Your task to perform on an android device: Add "asus zenbook" to the cart on newegg, then select checkout. Image 0: 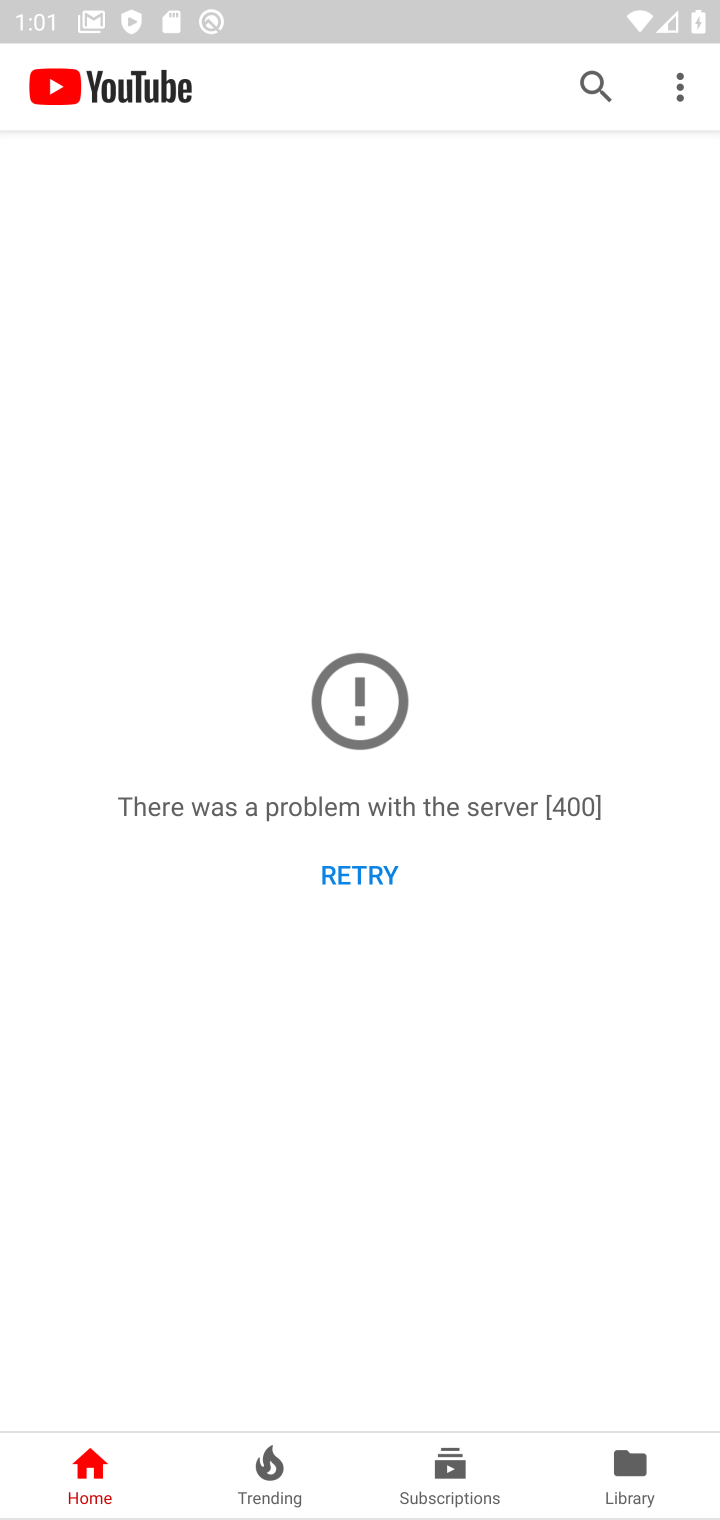
Step 0: press home button
Your task to perform on an android device: Add "asus zenbook" to the cart on newegg, then select checkout. Image 1: 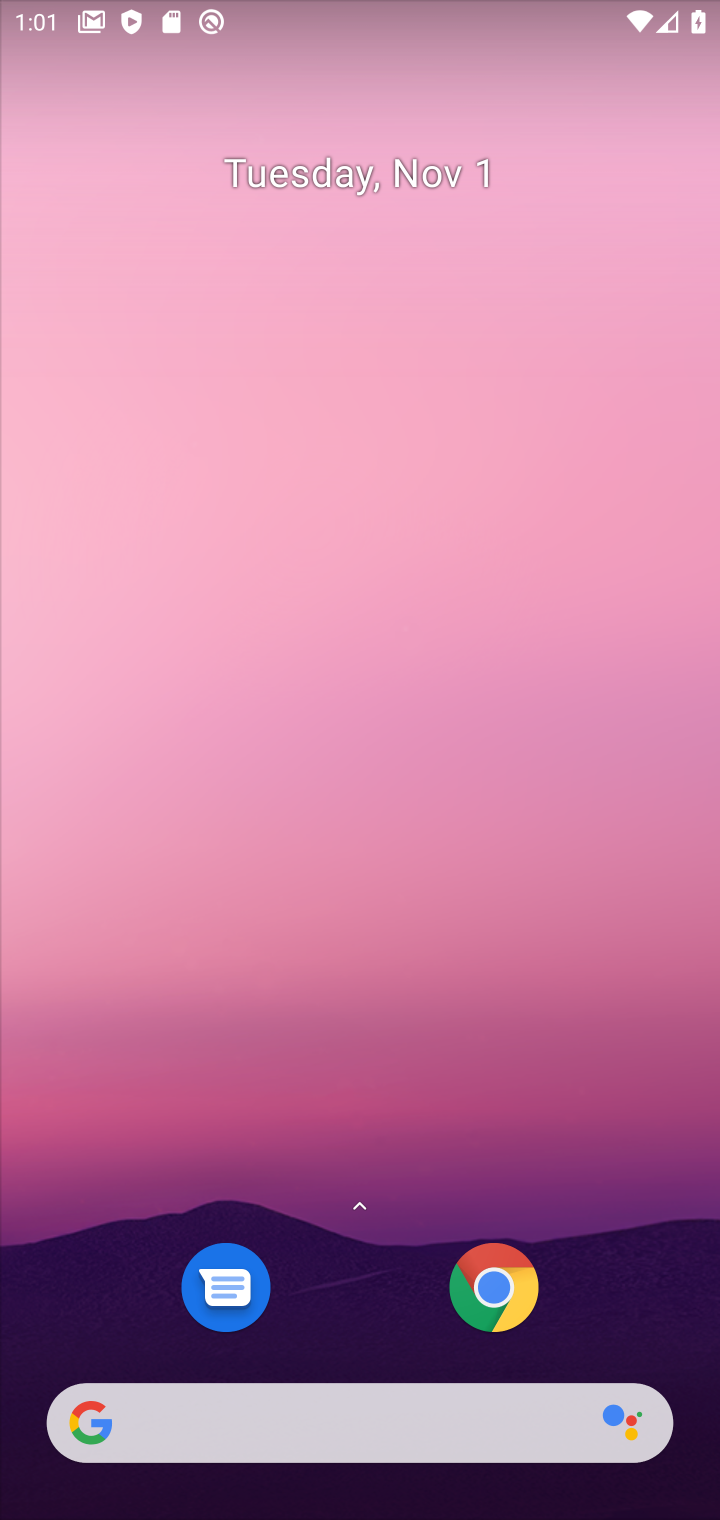
Step 1: drag from (335, 1285) to (311, 248)
Your task to perform on an android device: Add "asus zenbook" to the cart on newegg, then select checkout. Image 2: 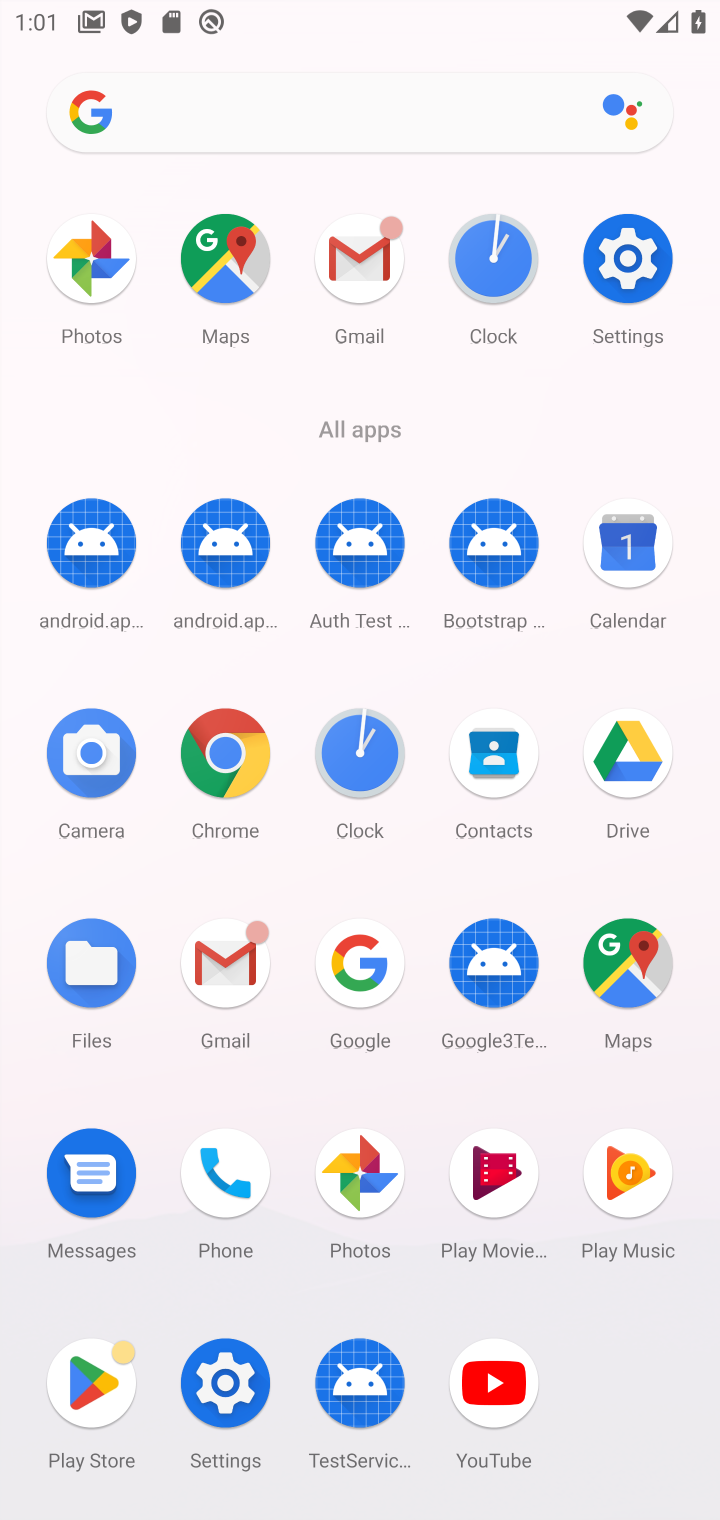
Step 2: click (238, 756)
Your task to perform on an android device: Add "asus zenbook" to the cart on newegg, then select checkout. Image 3: 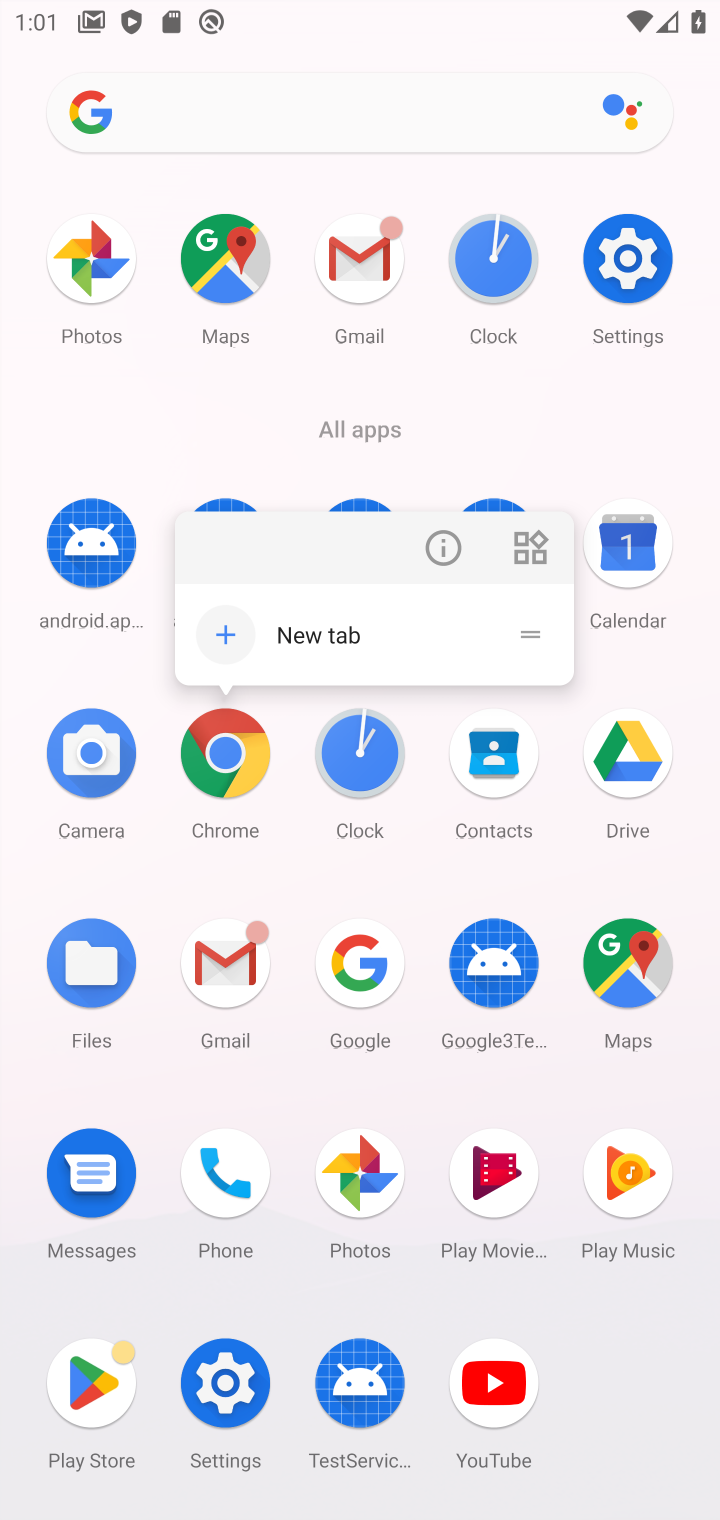
Step 3: click (238, 756)
Your task to perform on an android device: Add "asus zenbook" to the cart on newegg, then select checkout. Image 4: 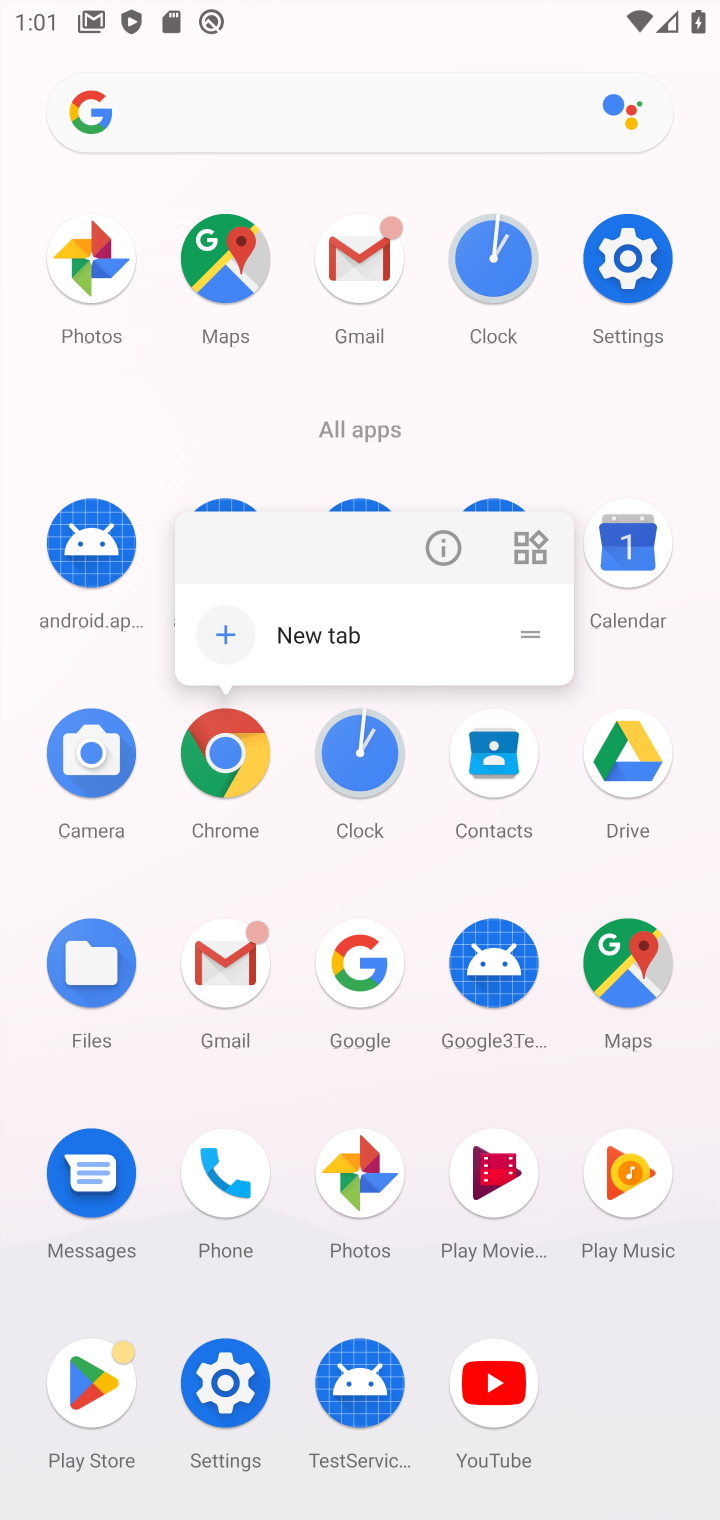
Step 4: click (237, 756)
Your task to perform on an android device: Add "asus zenbook" to the cart on newegg, then select checkout. Image 5: 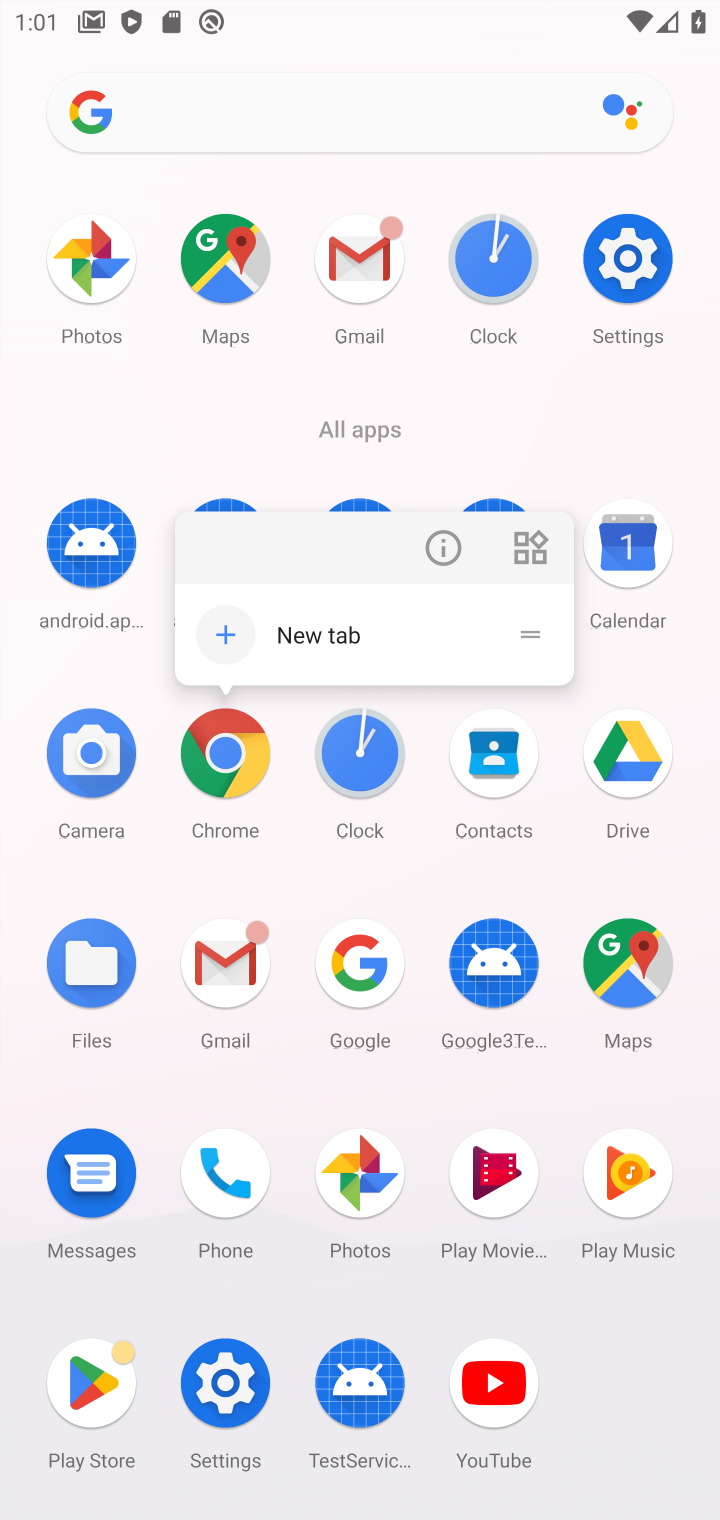
Step 5: click (229, 756)
Your task to perform on an android device: Add "asus zenbook" to the cart on newegg, then select checkout. Image 6: 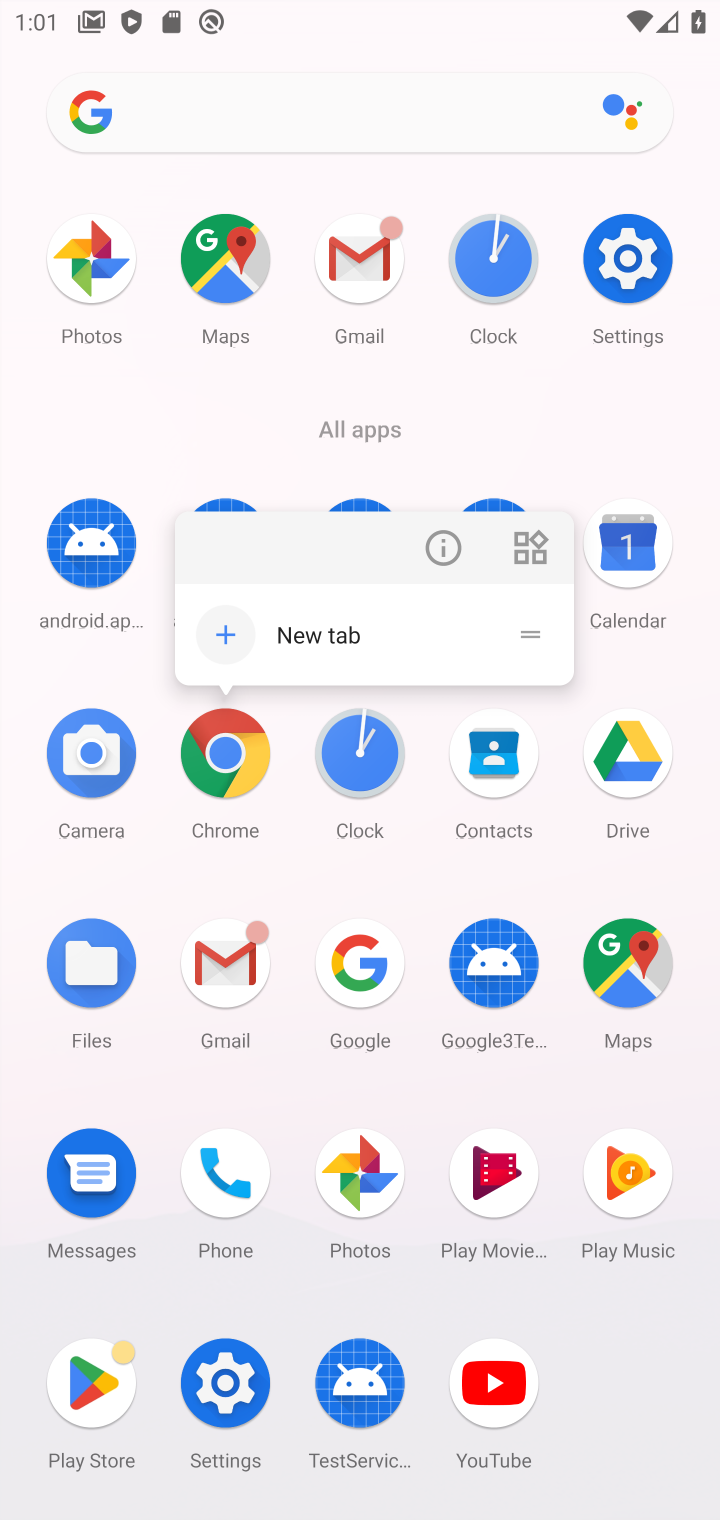
Step 6: click (223, 761)
Your task to perform on an android device: Add "asus zenbook" to the cart on newegg, then select checkout. Image 7: 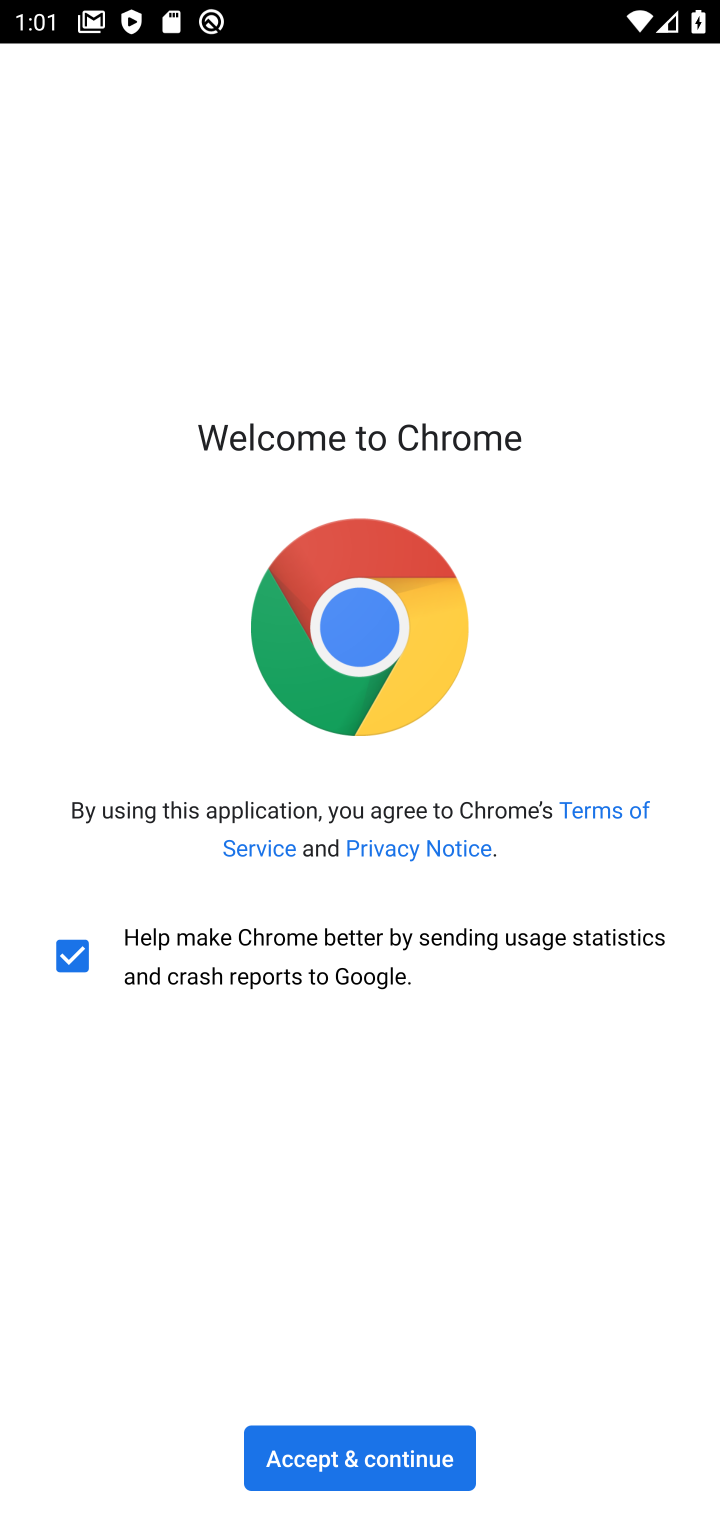
Step 7: click (391, 1461)
Your task to perform on an android device: Add "asus zenbook" to the cart on newegg, then select checkout. Image 8: 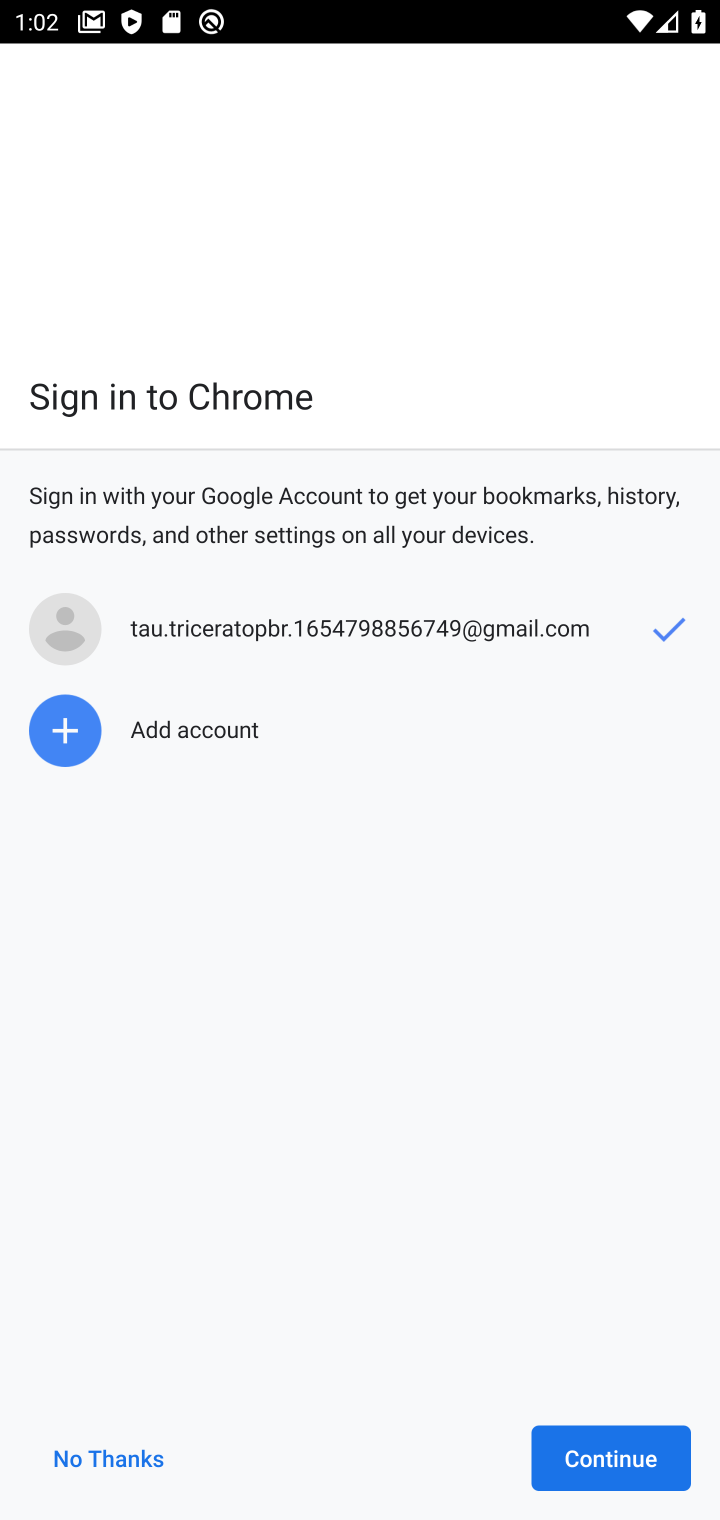
Step 8: click (640, 1465)
Your task to perform on an android device: Add "asus zenbook" to the cart on newegg, then select checkout. Image 9: 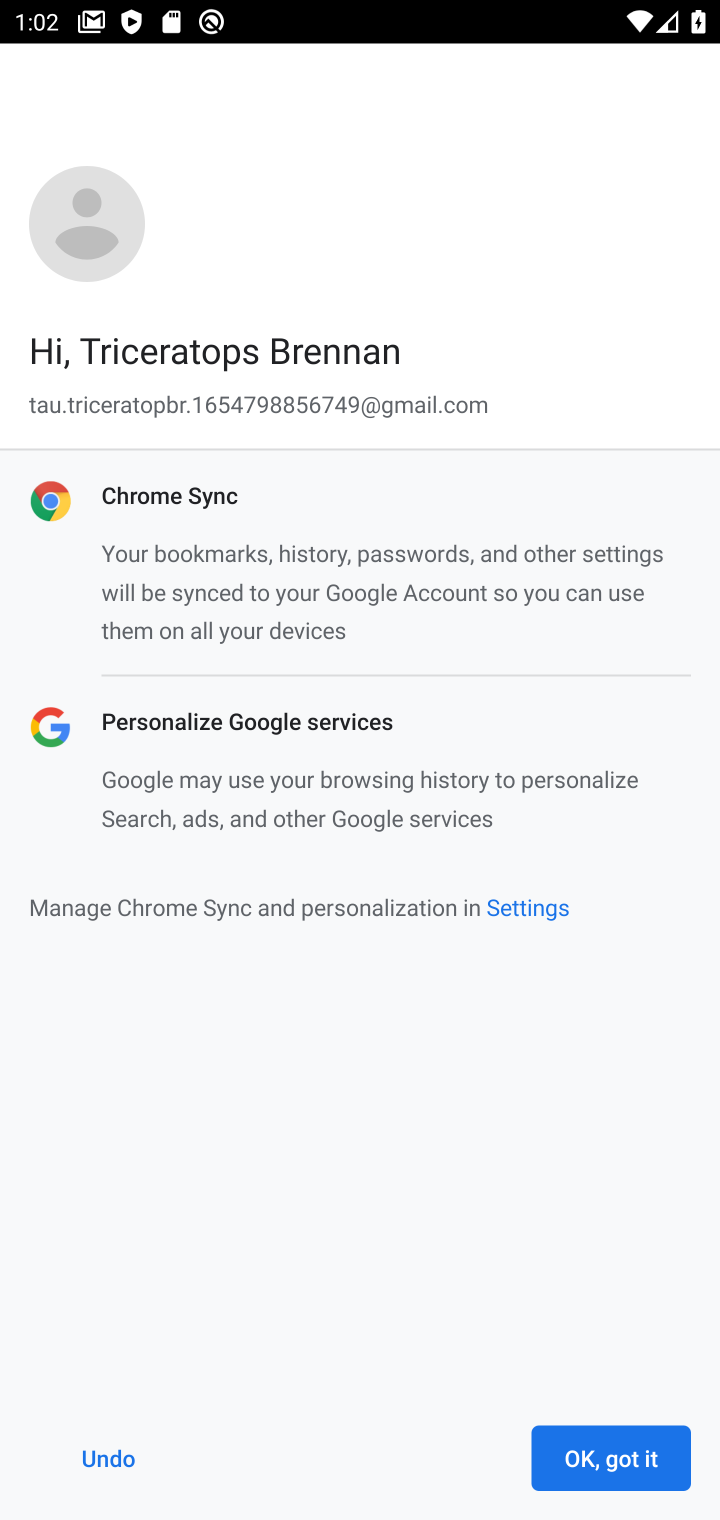
Step 9: click (635, 1459)
Your task to perform on an android device: Add "asus zenbook" to the cart on newegg, then select checkout. Image 10: 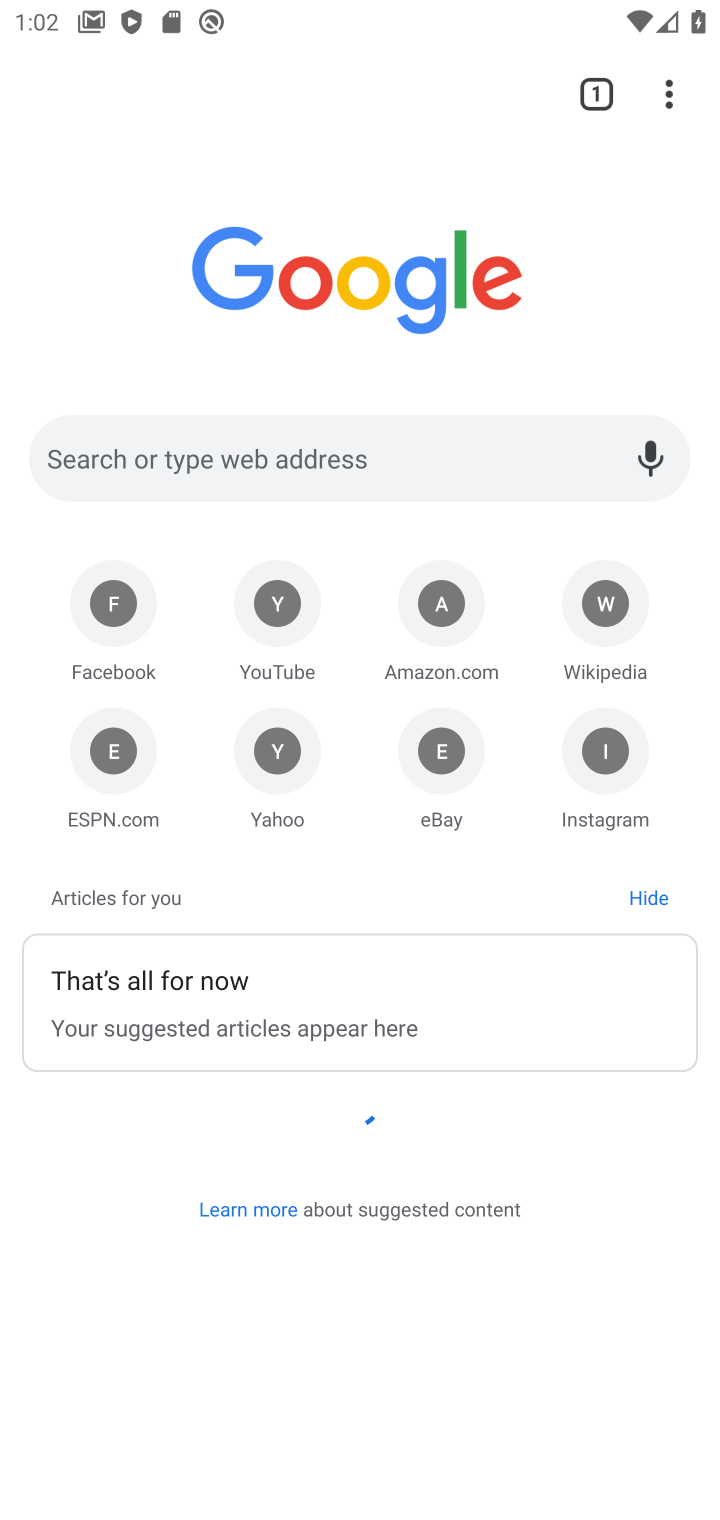
Step 10: click (327, 447)
Your task to perform on an android device: Add "asus zenbook" to the cart on newegg, then select checkout. Image 11: 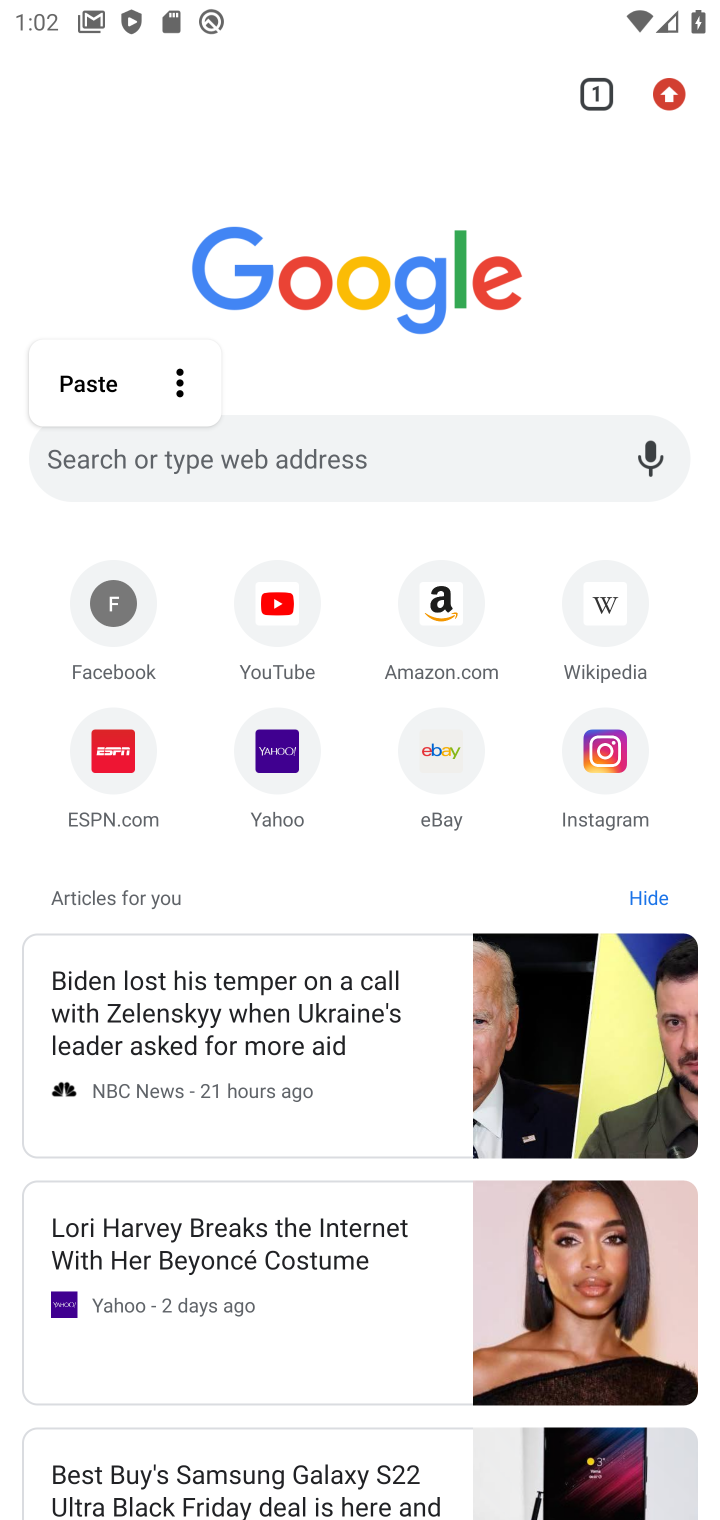
Step 11: click (192, 471)
Your task to perform on an android device: Add "asus zenbook" to the cart on newegg, then select checkout. Image 12: 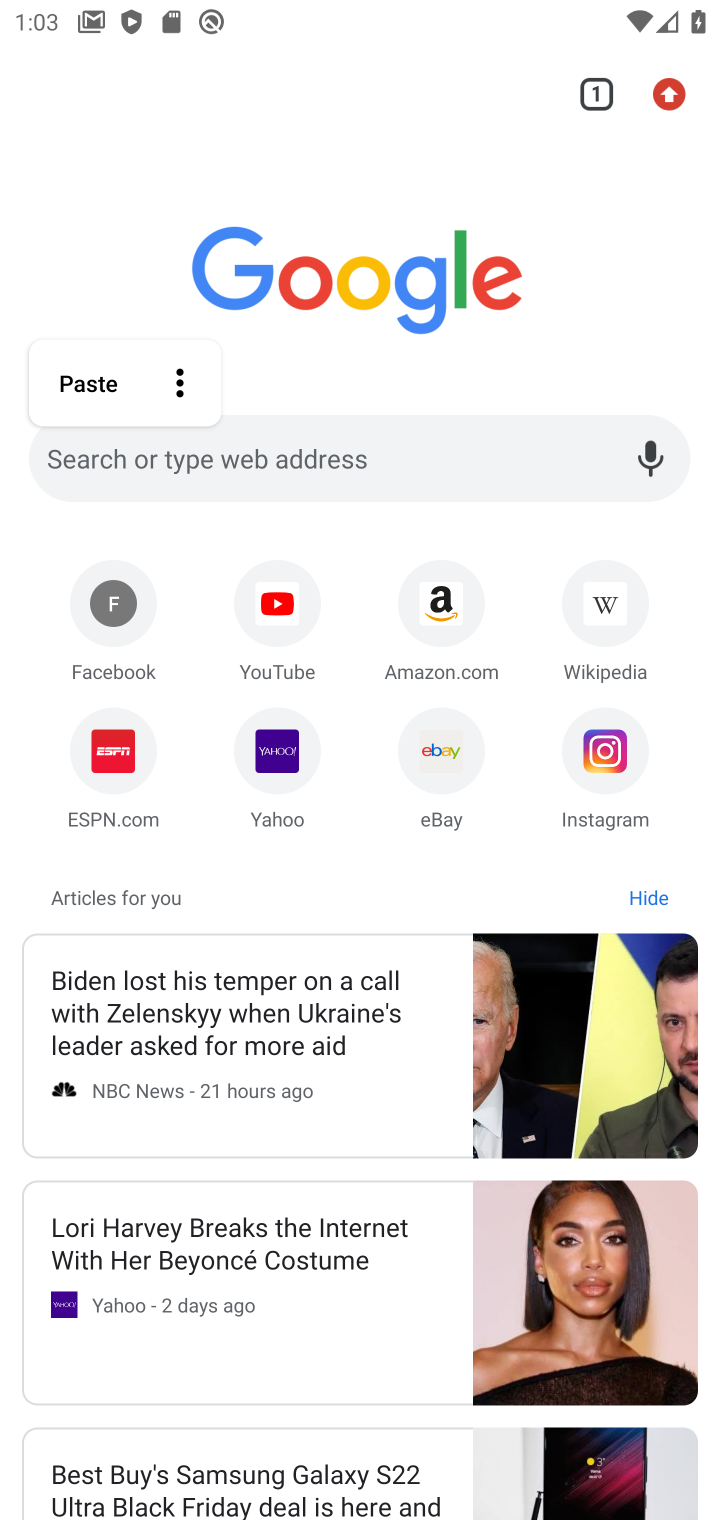
Step 12: click (228, 454)
Your task to perform on an android device: Add "asus zenbook" to the cart on newegg, then select checkout. Image 13: 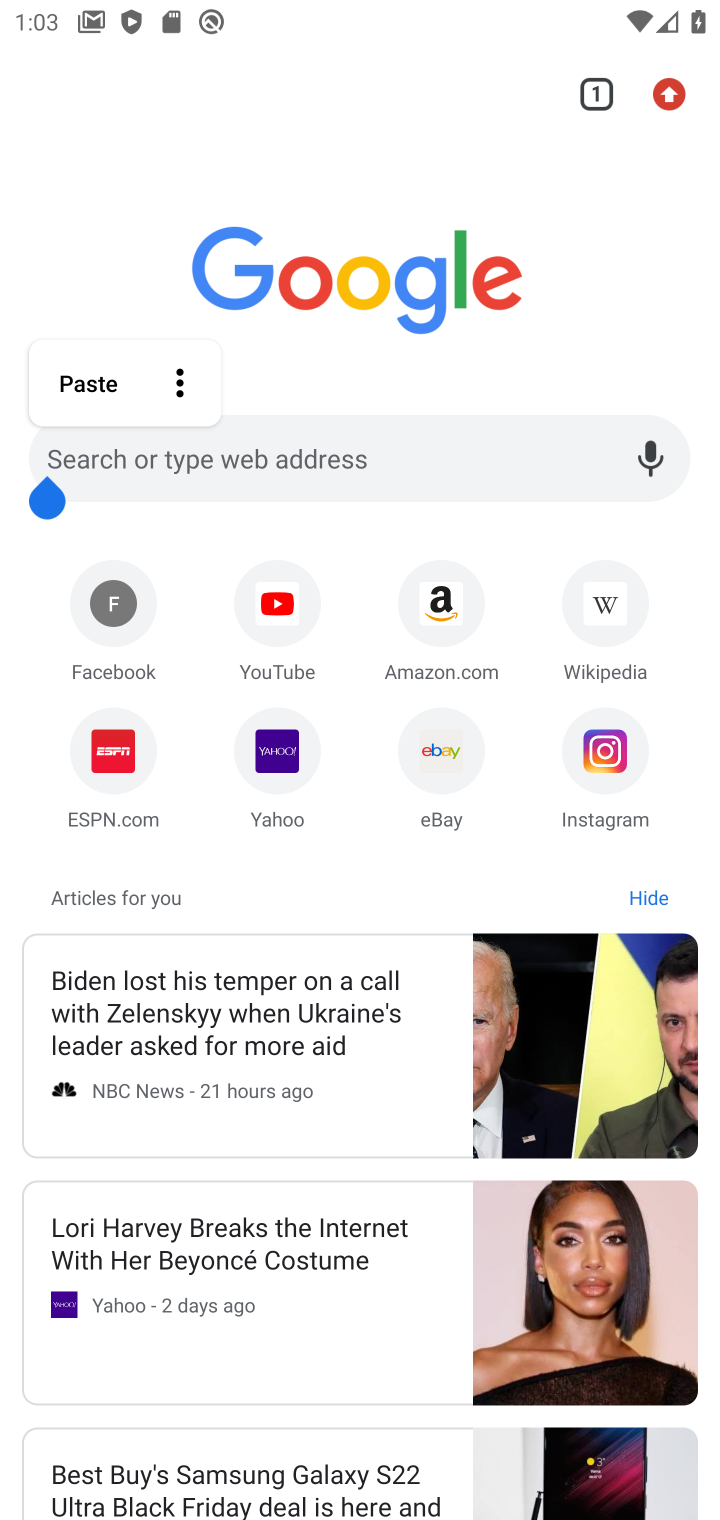
Step 13: click (480, 469)
Your task to perform on an android device: Add "asus zenbook" to the cart on newegg, then select checkout. Image 14: 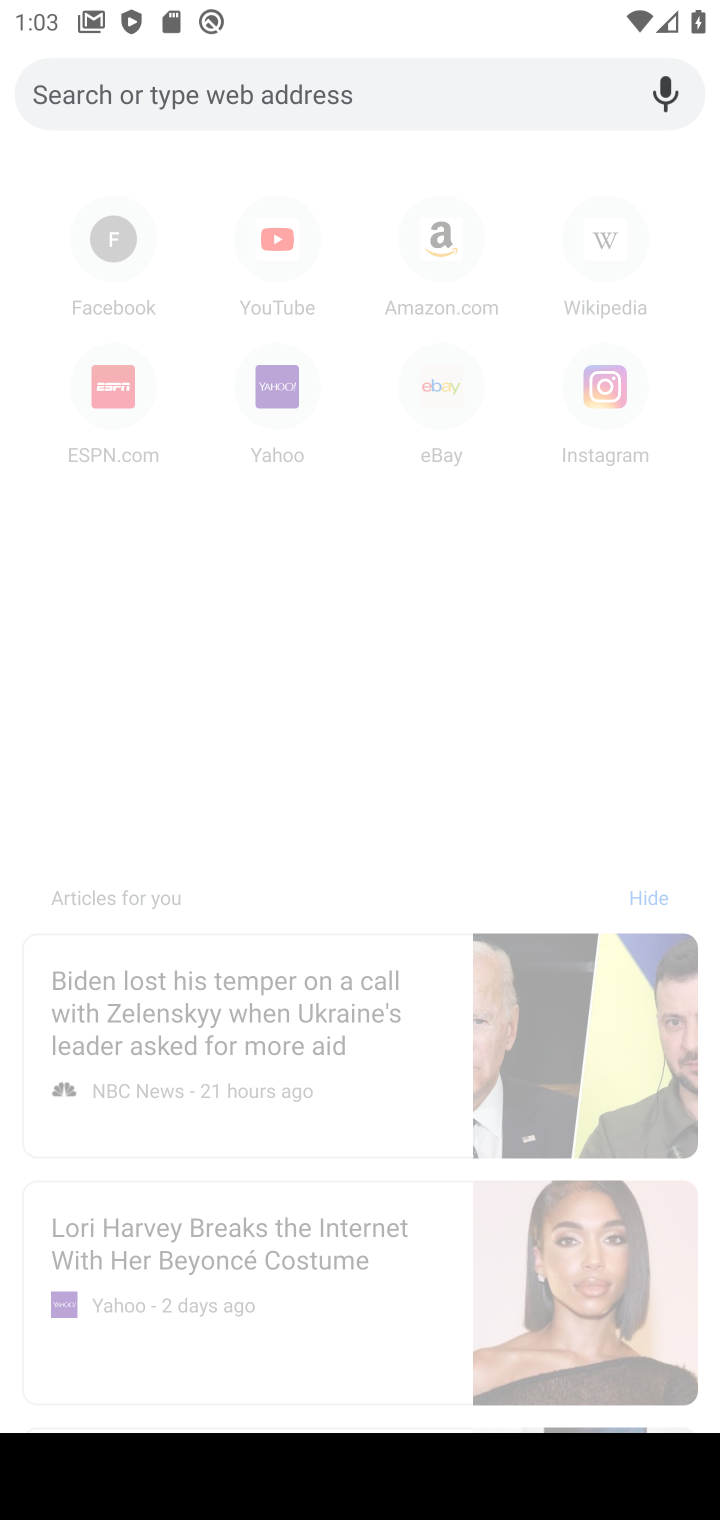
Step 14: type "newegg.com"
Your task to perform on an android device: Add "asus zenbook" to the cart on newegg, then select checkout. Image 15: 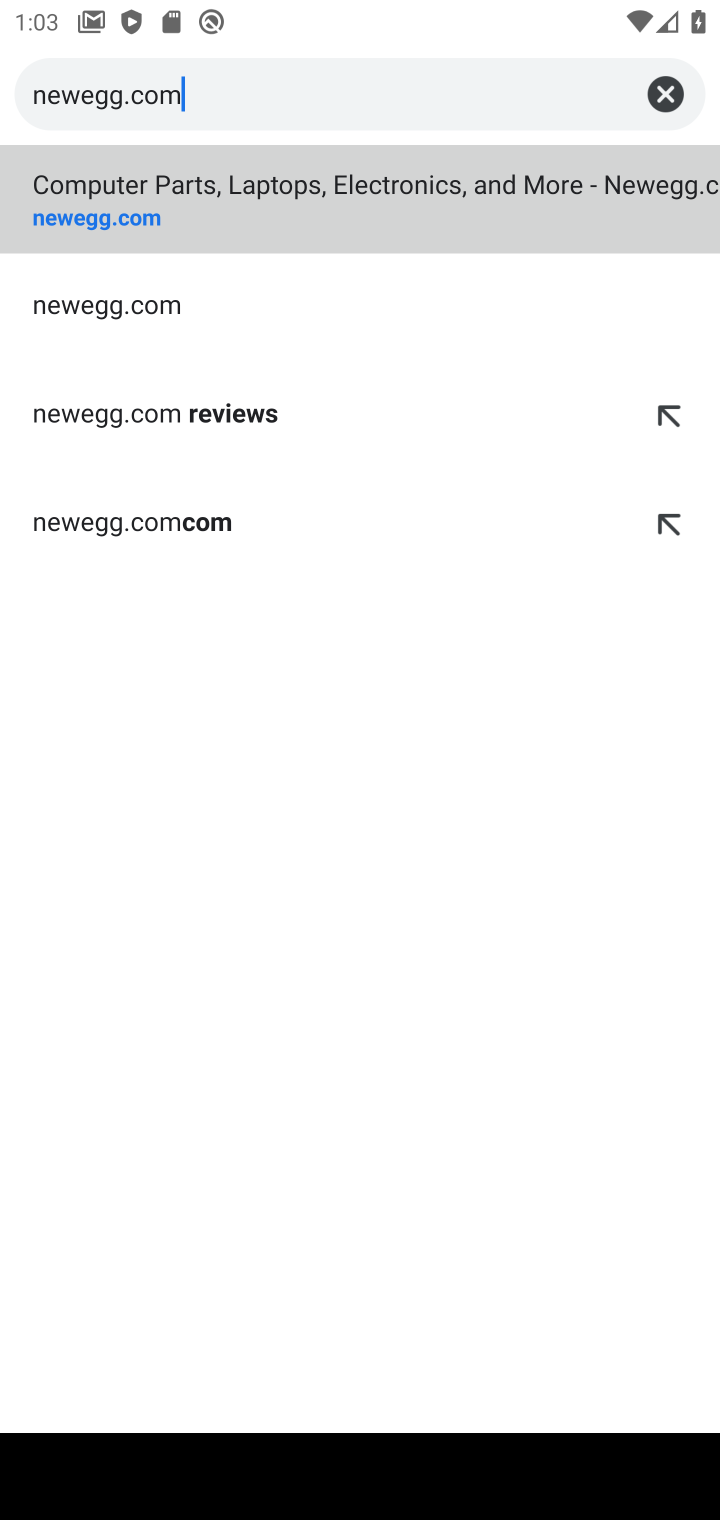
Step 15: press enter
Your task to perform on an android device: Add "asus zenbook" to the cart on newegg, then select checkout. Image 16: 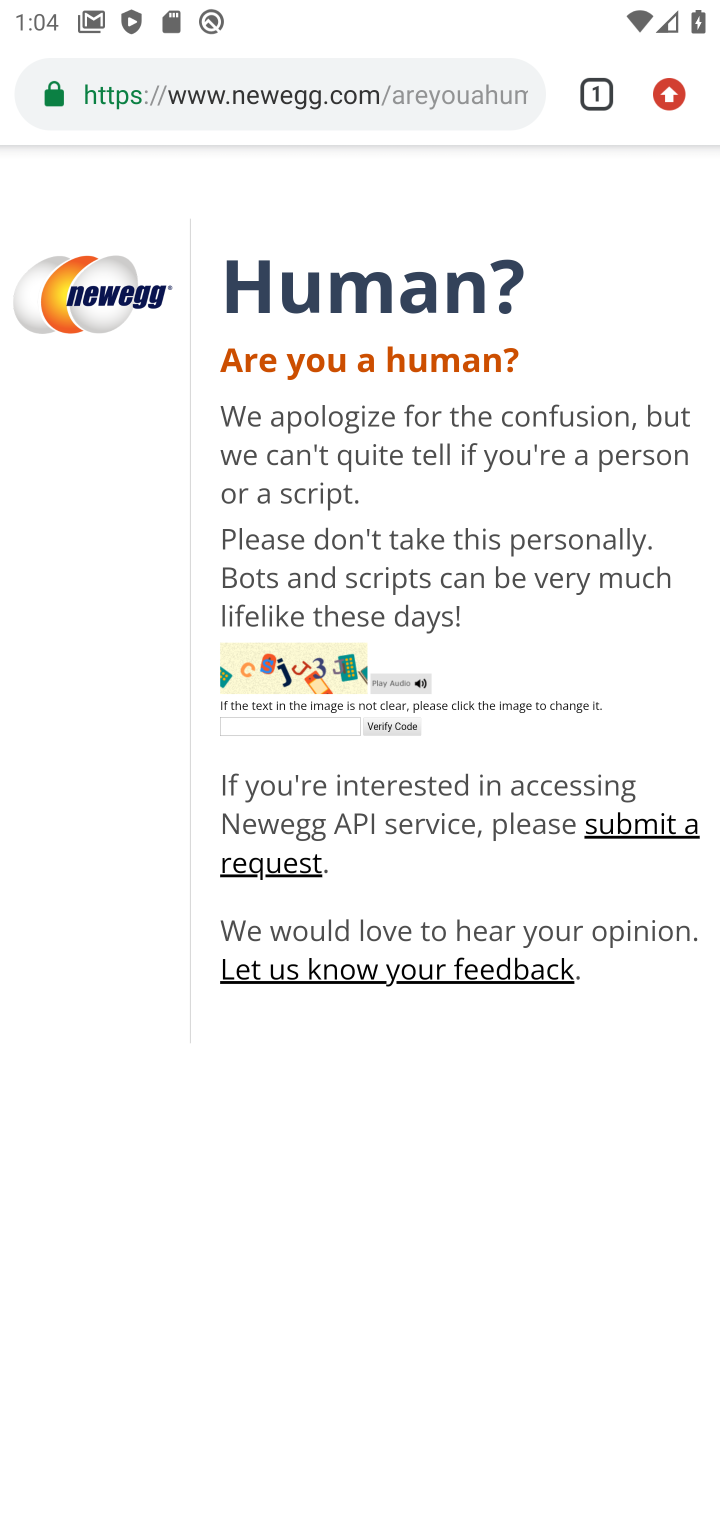
Step 16: click (320, 723)
Your task to perform on an android device: Add "asus zenbook" to the cart on newegg, then select checkout. Image 17: 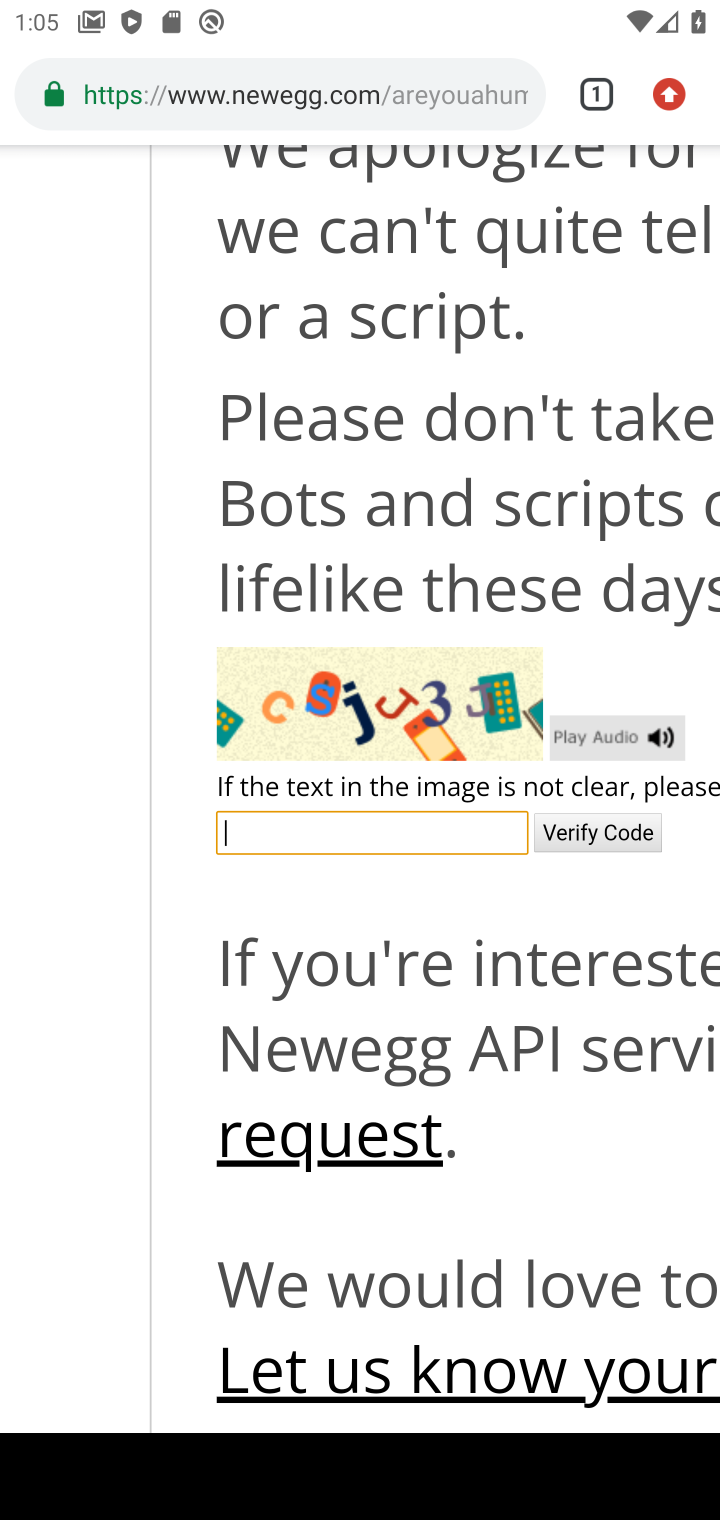
Step 17: type "fcsjJ3l"
Your task to perform on an android device: Add "asus zenbook" to the cart on newegg, then select checkout. Image 18: 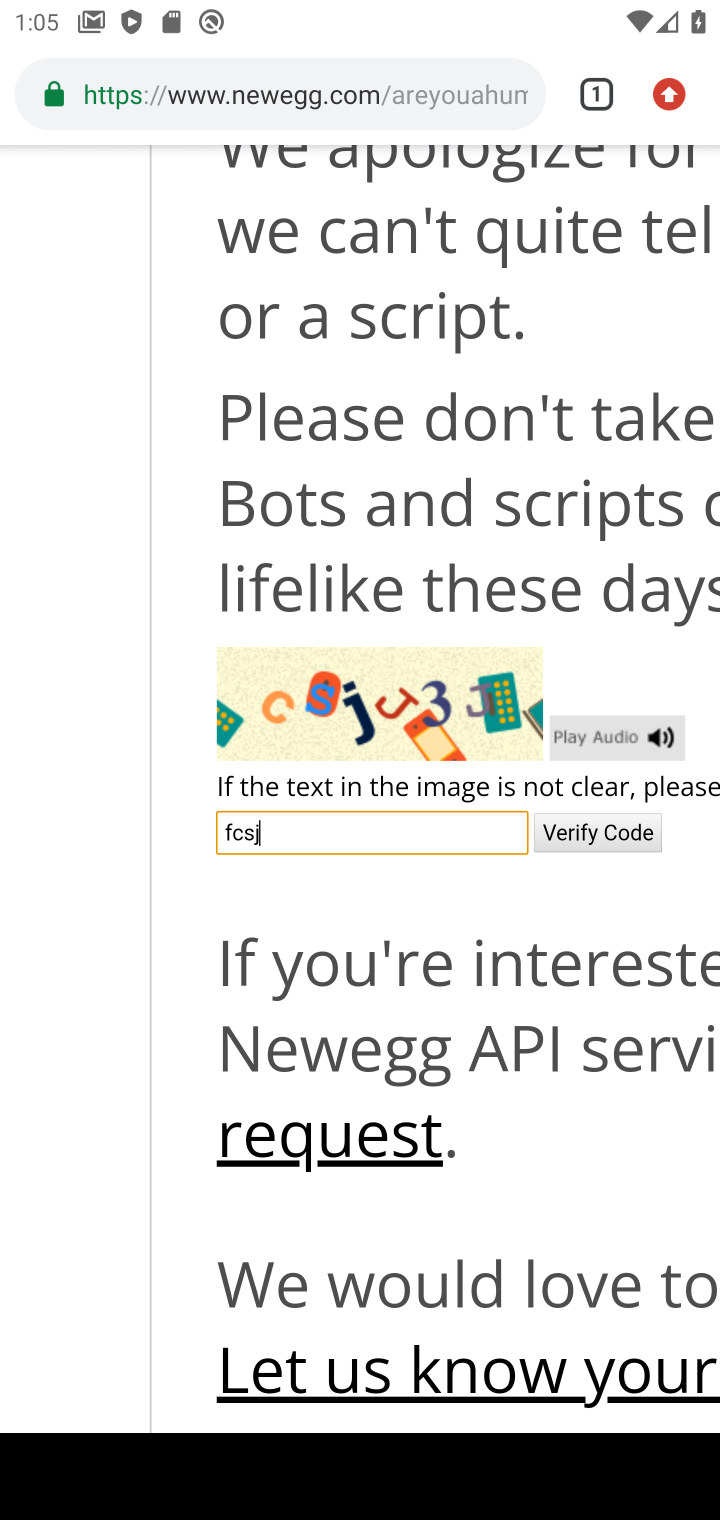
Step 18: type ""
Your task to perform on an android device: Add "asus zenbook" to the cart on newegg, then select checkout. Image 19: 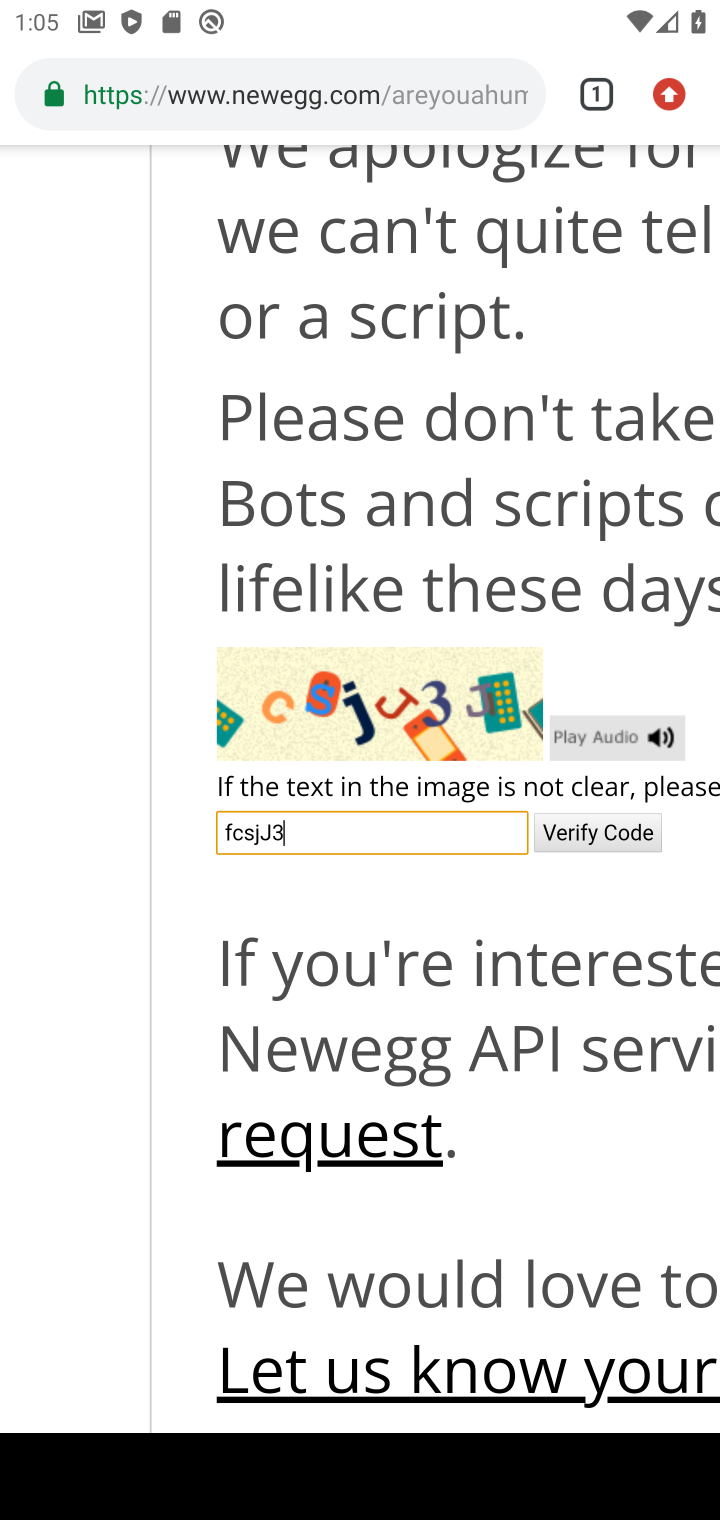
Step 19: click (627, 821)
Your task to perform on an android device: Add "asus zenbook" to the cart on newegg, then select checkout. Image 20: 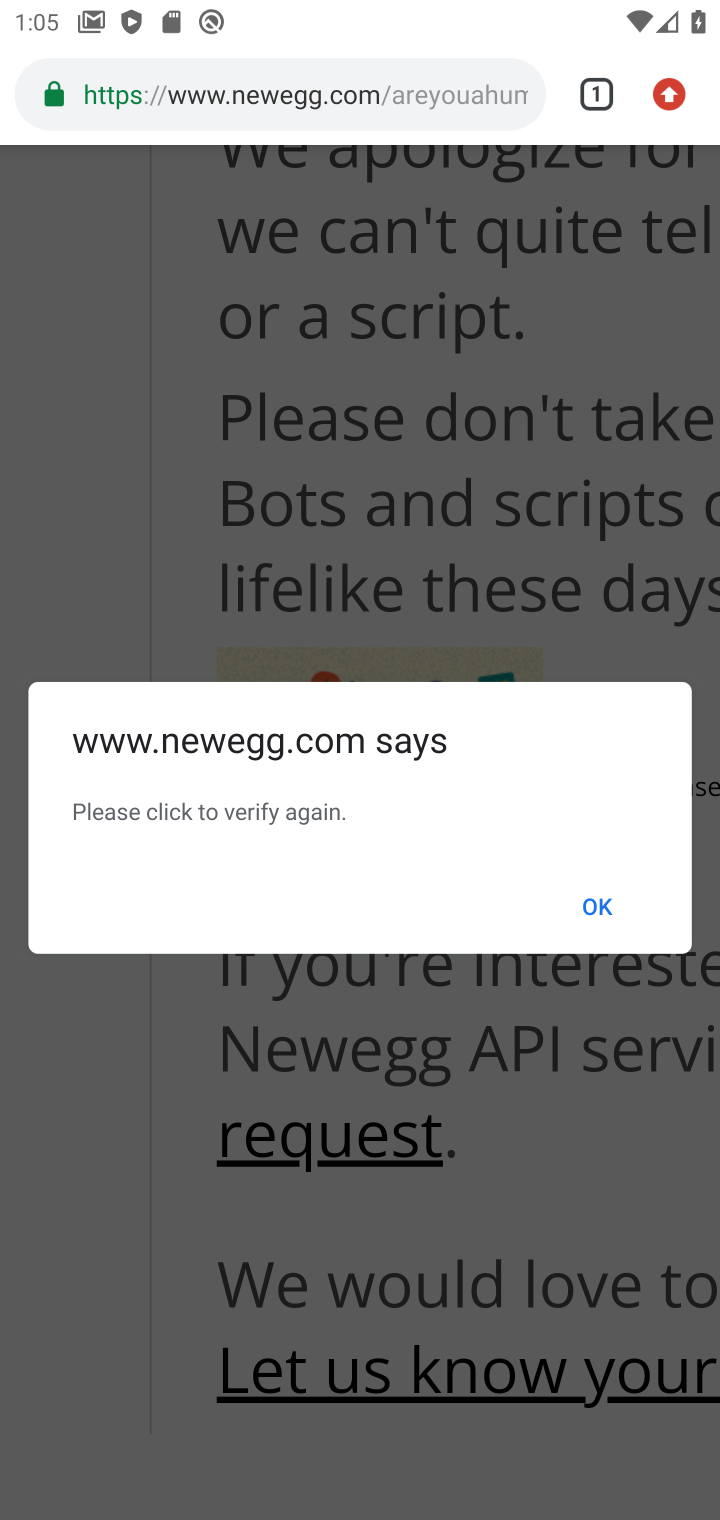
Step 20: click (574, 826)
Your task to perform on an android device: Add "asus zenbook" to the cart on newegg, then select checkout. Image 21: 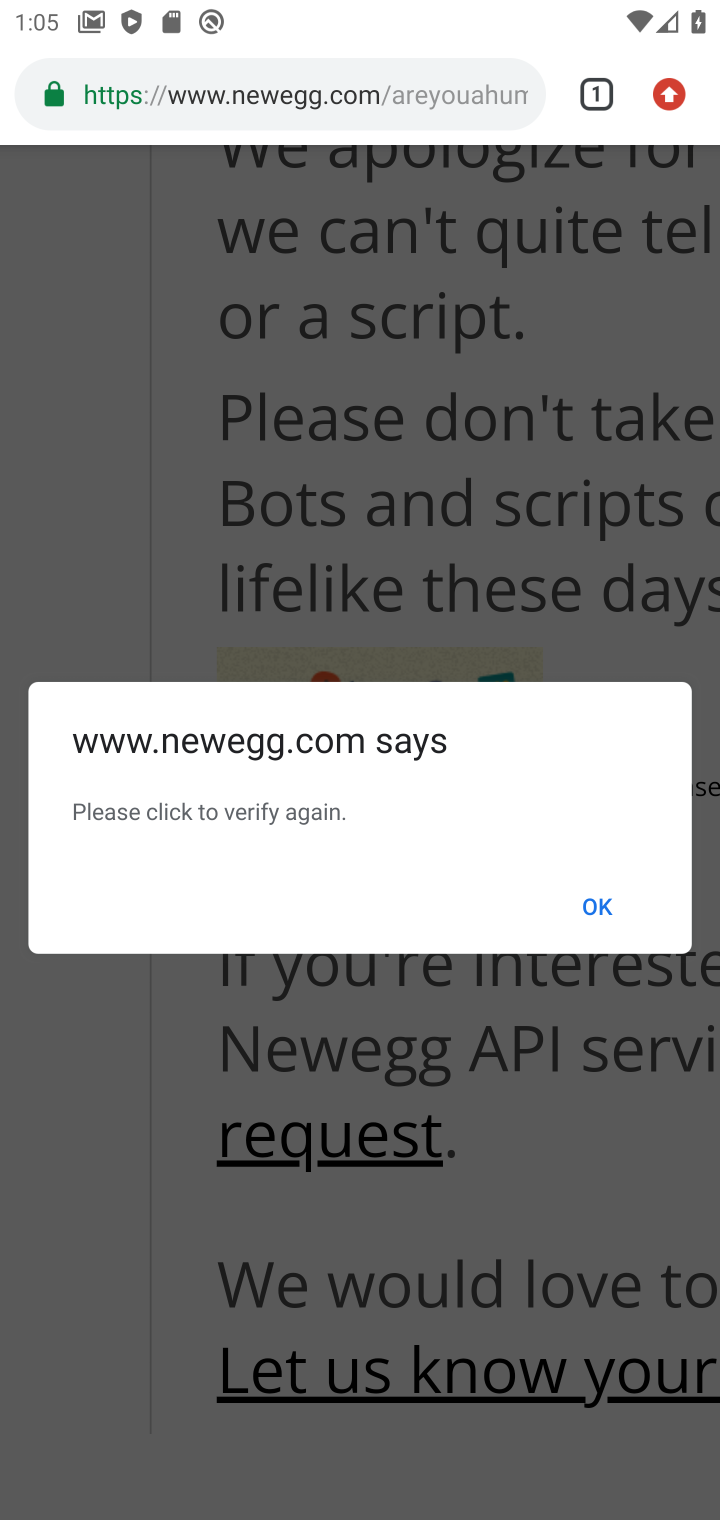
Step 21: click (611, 898)
Your task to perform on an android device: Add "asus zenbook" to the cart on newegg, then select checkout. Image 22: 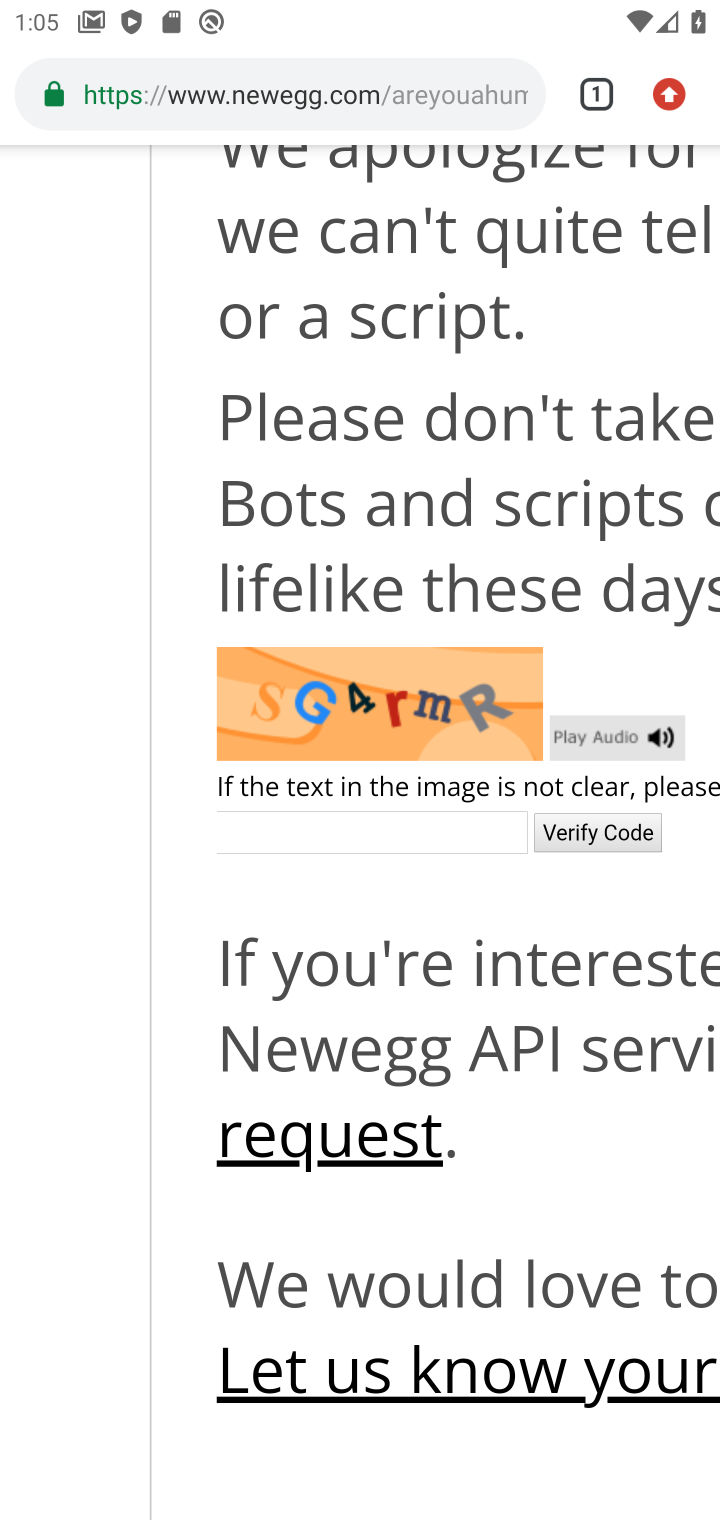
Step 22: click (433, 820)
Your task to perform on an android device: Add "asus zenbook" to the cart on newegg, then select checkout. Image 23: 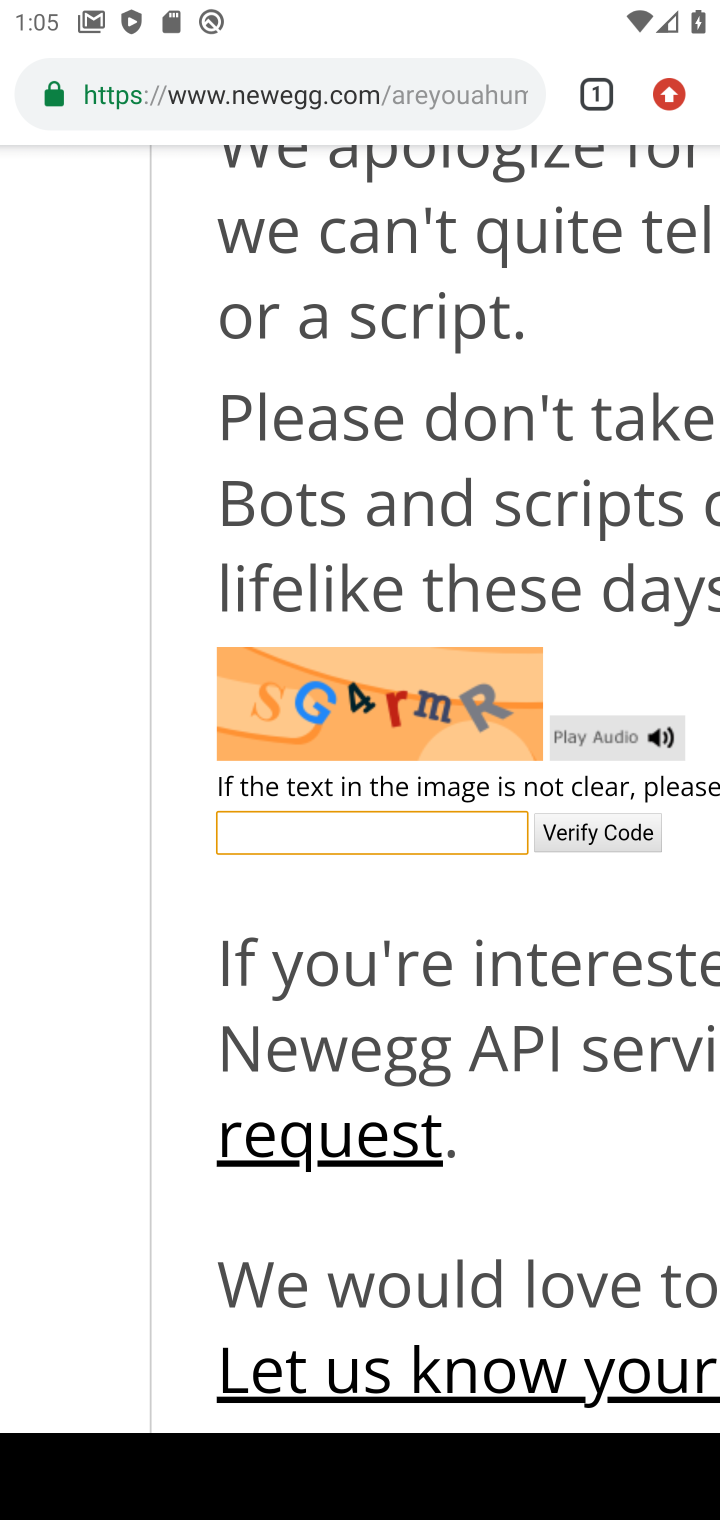
Step 23: type "SG4rmR"
Your task to perform on an android device: Add "asus zenbook" to the cart on newegg, then select checkout. Image 24: 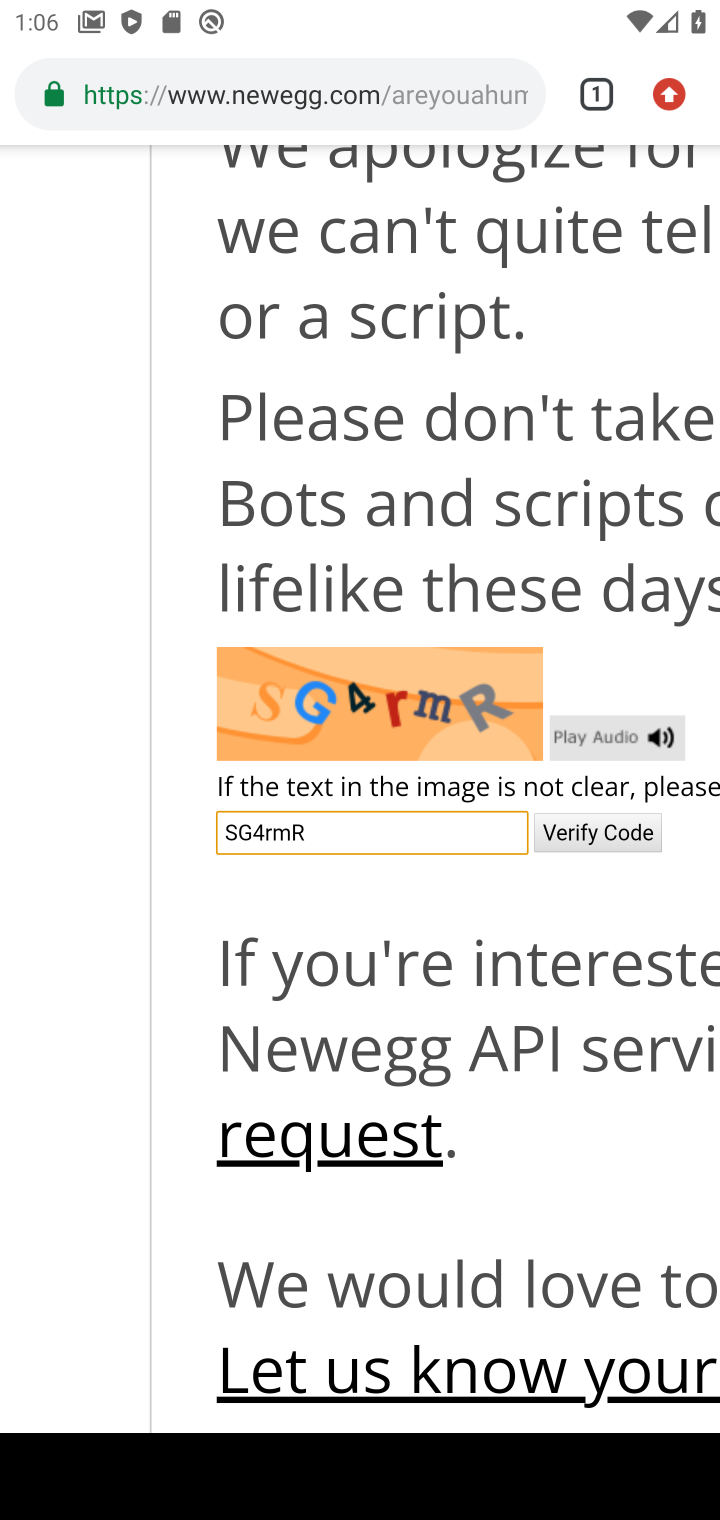
Step 24: click (642, 825)
Your task to perform on an android device: Add "asus zenbook" to the cart on newegg, then select checkout. Image 25: 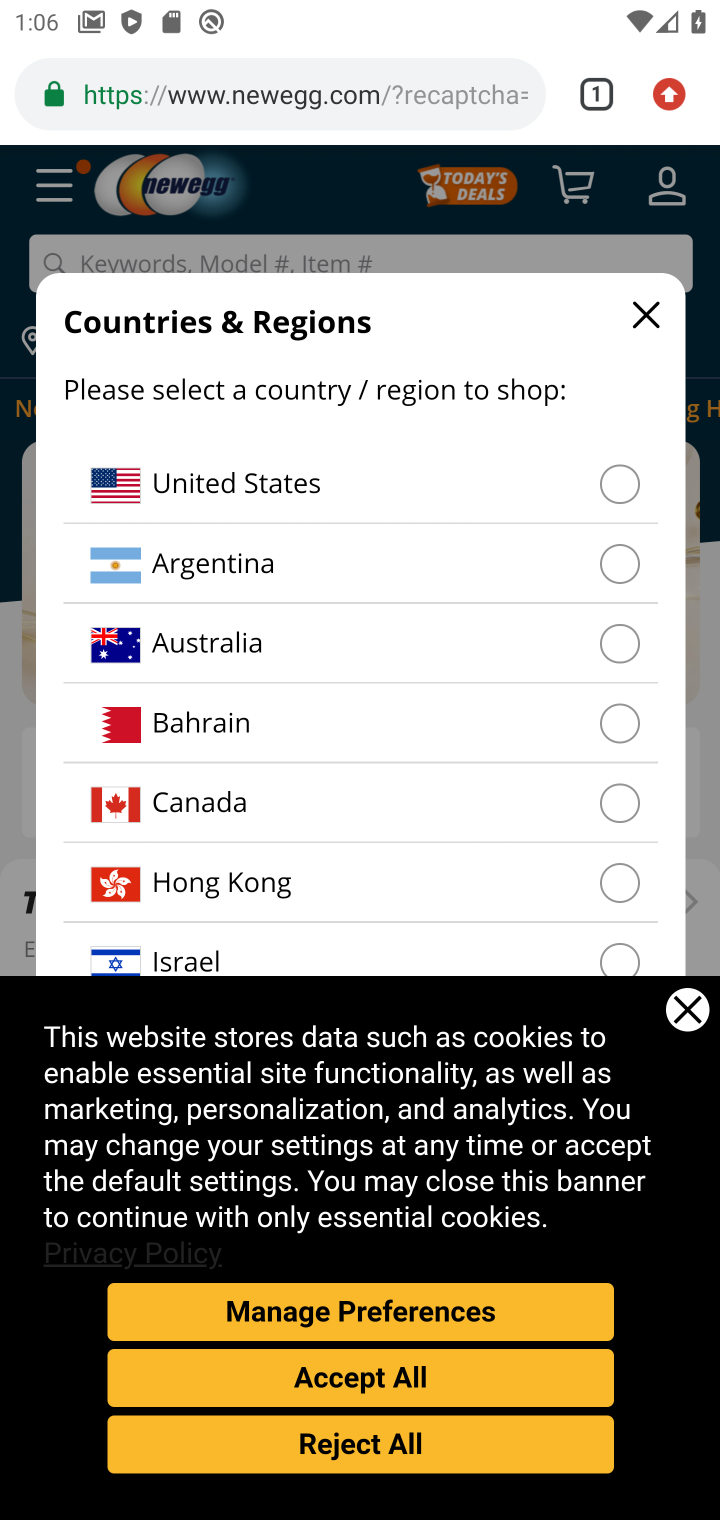
Step 25: click (629, 296)
Your task to perform on an android device: Add "asus zenbook" to the cart on newegg, then select checkout. Image 26: 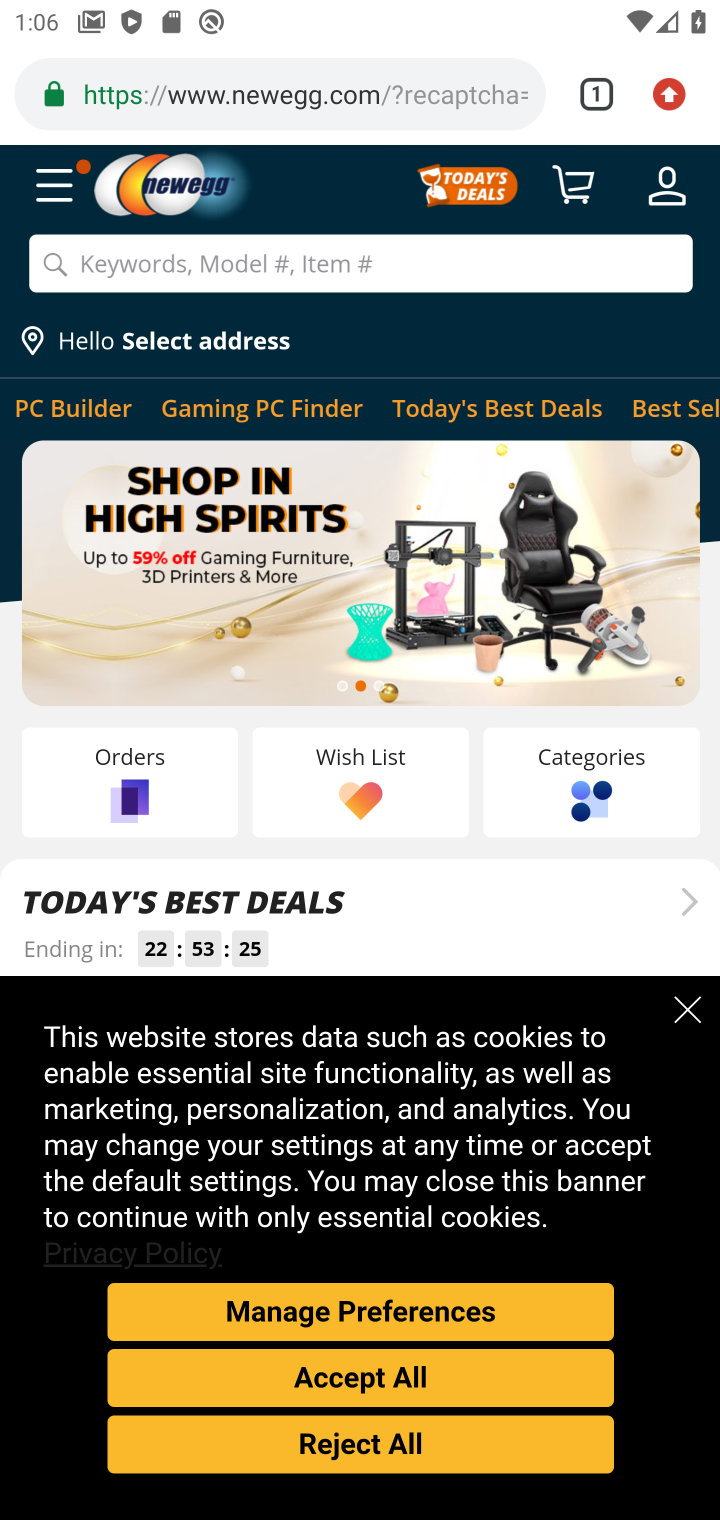
Step 26: click (466, 272)
Your task to perform on an android device: Add "asus zenbook" to the cart on newegg, then select checkout. Image 27: 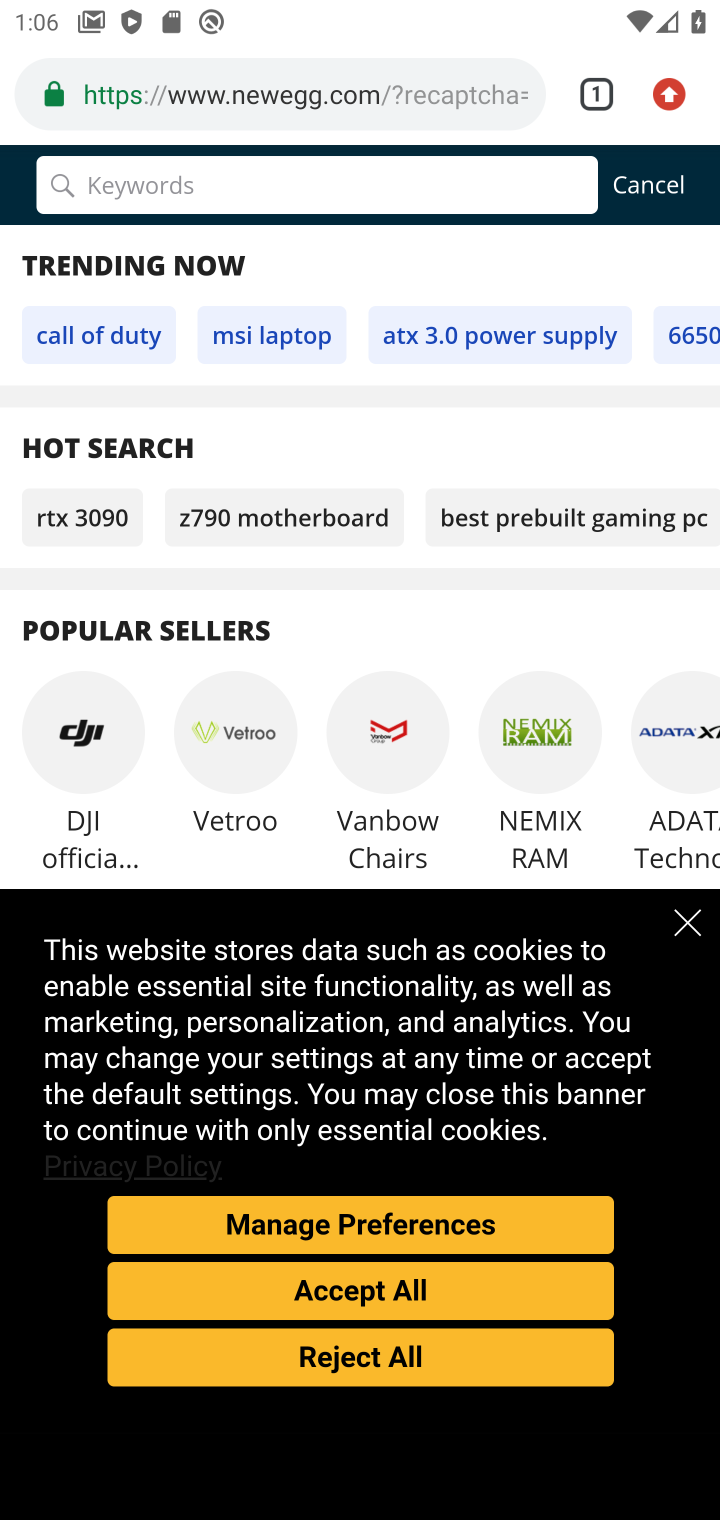
Step 27: type "asus zenbook"
Your task to perform on an android device: Add "asus zenbook" to the cart on newegg, then select checkout. Image 28: 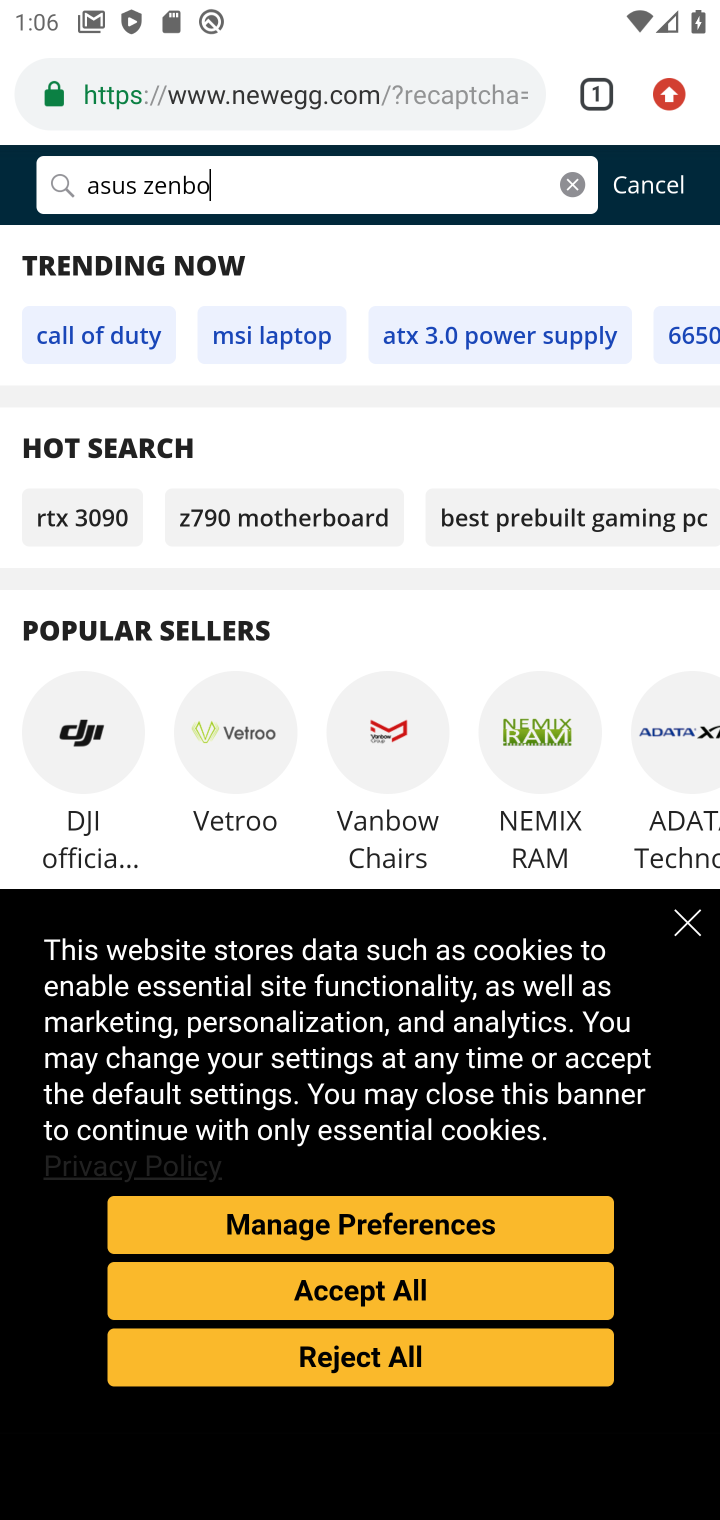
Step 28: press enter
Your task to perform on an android device: Add "asus zenbook" to the cart on newegg, then select checkout. Image 29: 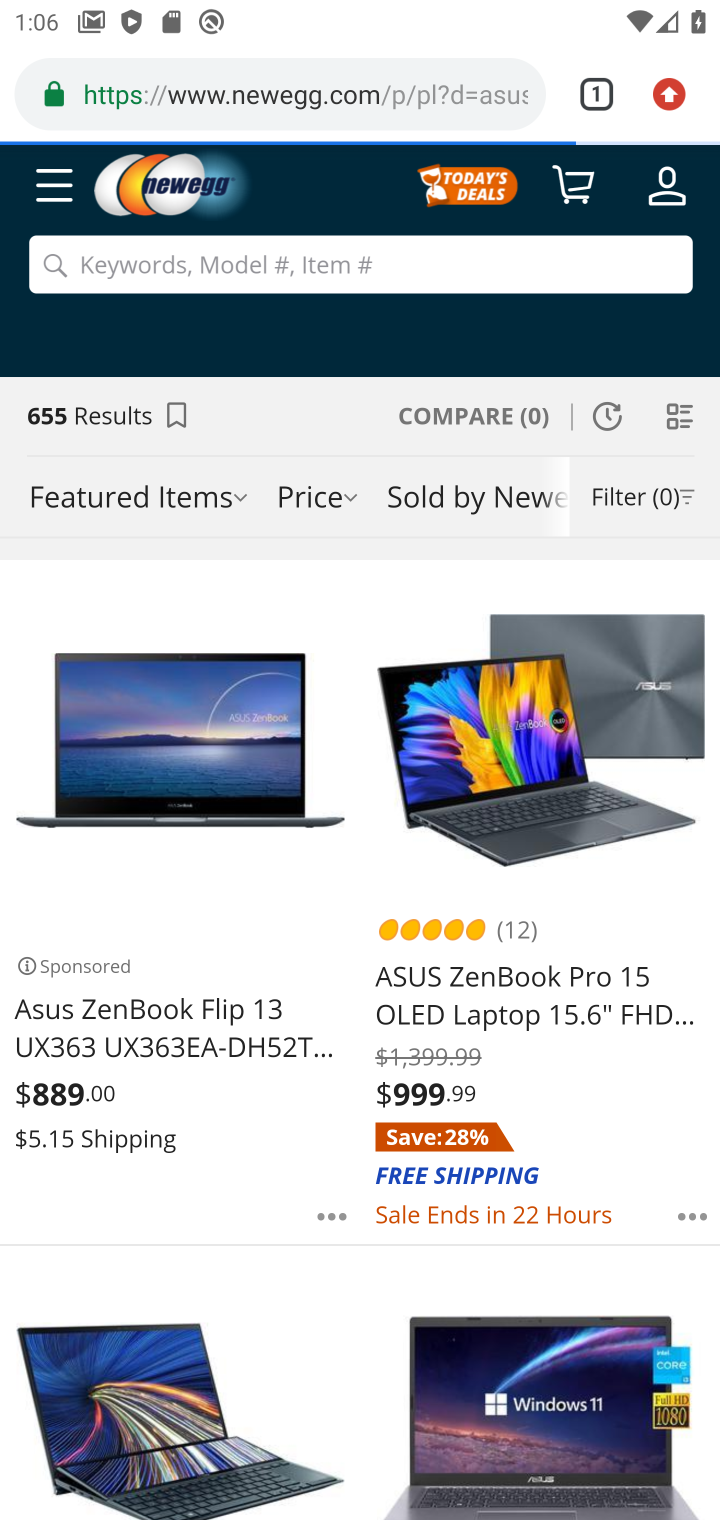
Step 29: press enter
Your task to perform on an android device: Add "asus zenbook" to the cart on newegg, then select checkout. Image 30: 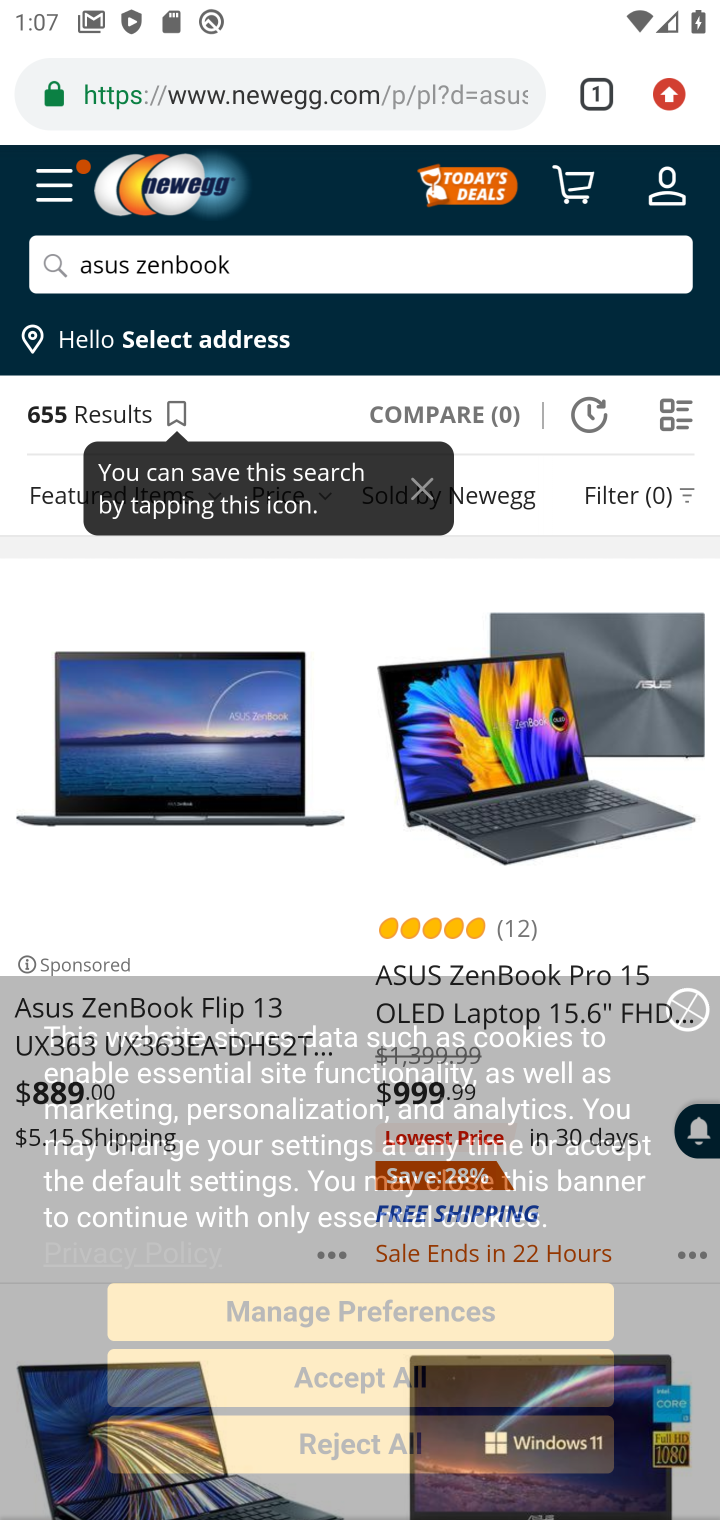
Step 30: drag from (319, 970) to (525, 359)
Your task to perform on an android device: Add "asus zenbook" to the cart on newegg, then select checkout. Image 31: 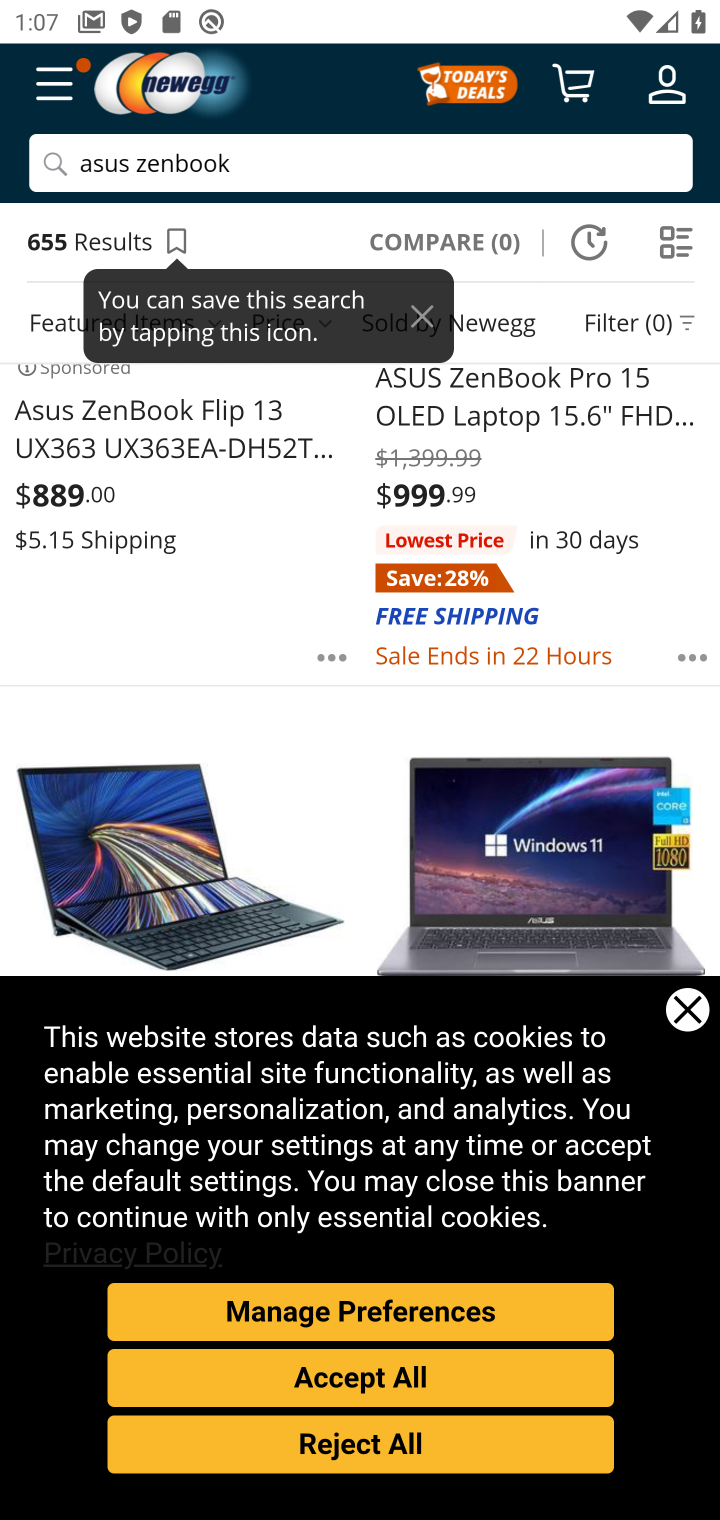
Step 31: drag from (500, 366) to (493, 676)
Your task to perform on an android device: Add "asus zenbook" to the cart on newegg, then select checkout. Image 32: 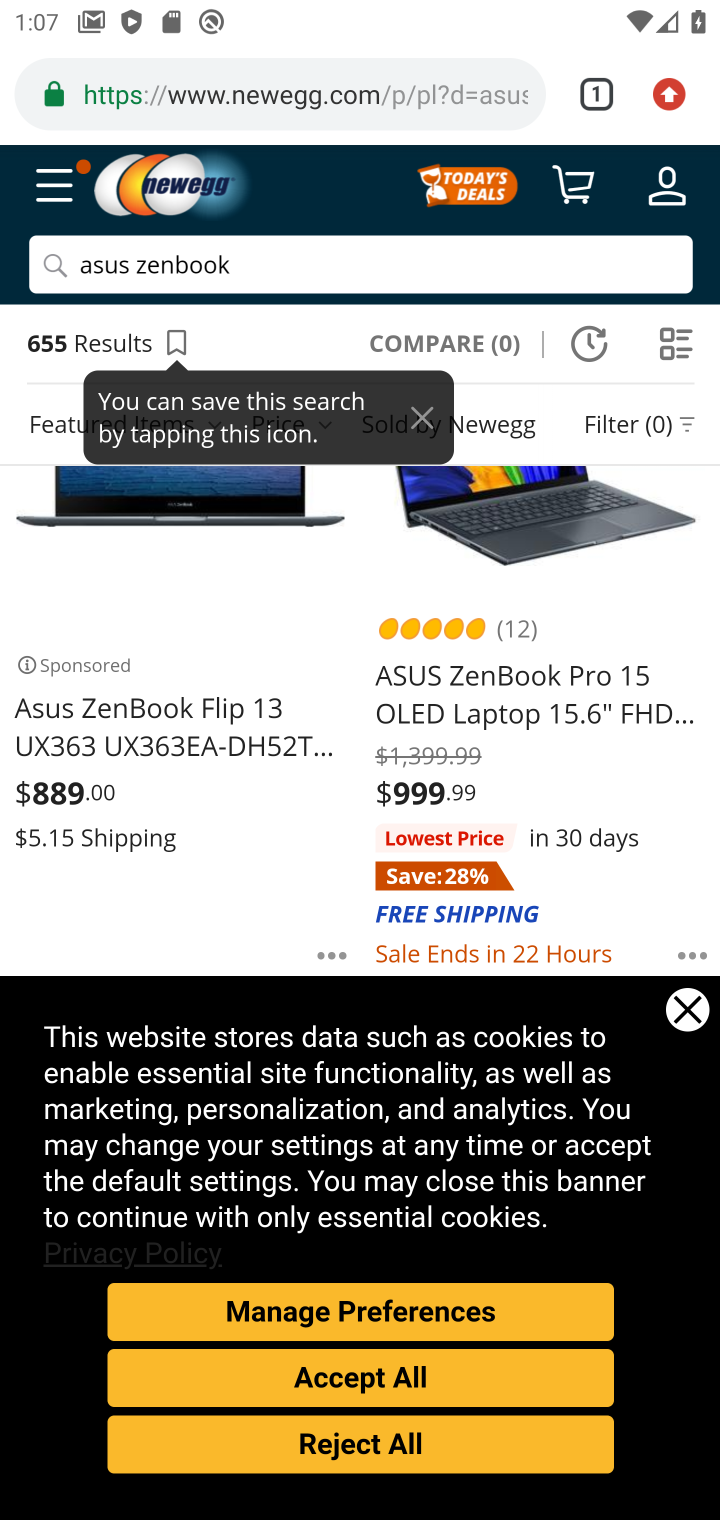
Step 32: drag from (531, 718) to (418, 1067)
Your task to perform on an android device: Add "asus zenbook" to the cart on newegg, then select checkout. Image 33: 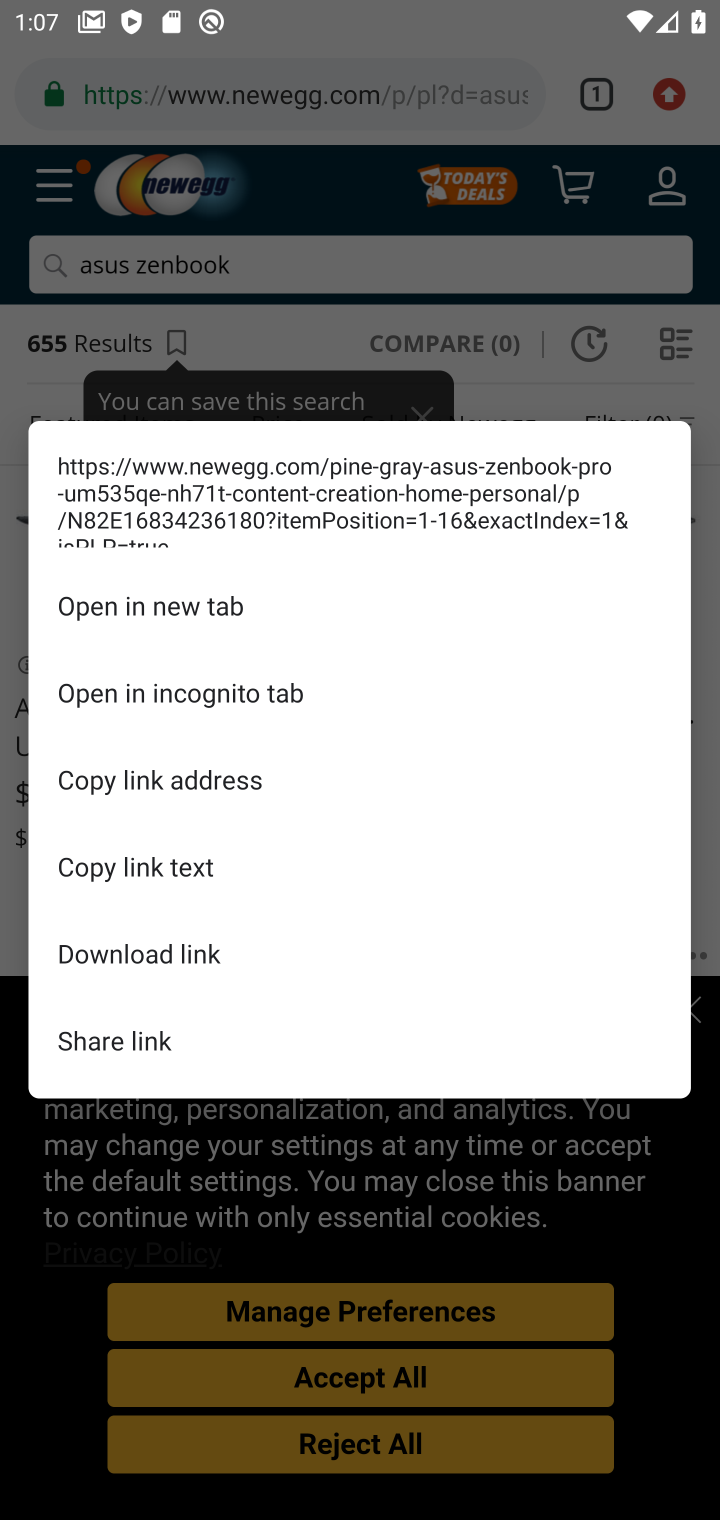
Step 33: click (393, 359)
Your task to perform on an android device: Add "asus zenbook" to the cart on newegg, then select checkout. Image 34: 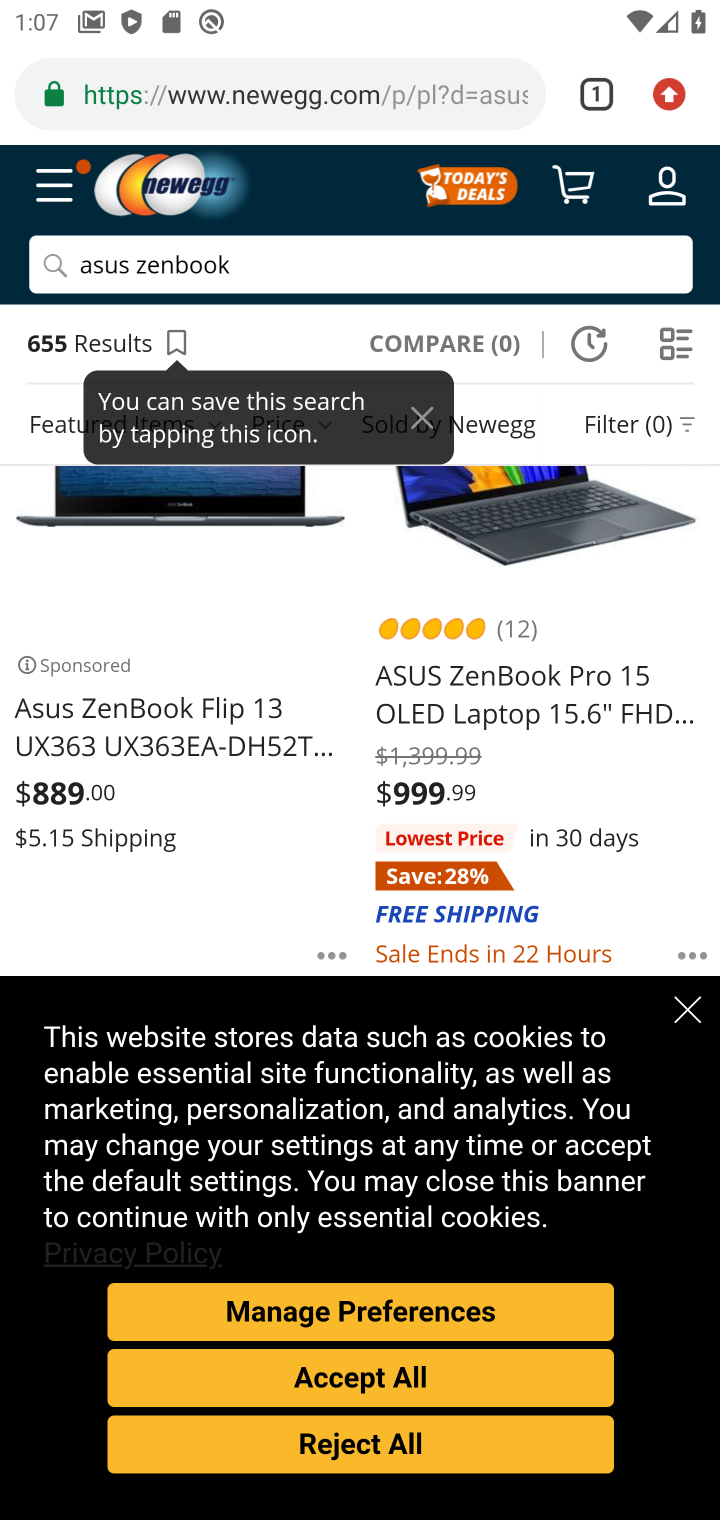
Step 34: click (512, 601)
Your task to perform on an android device: Add "asus zenbook" to the cart on newegg, then select checkout. Image 35: 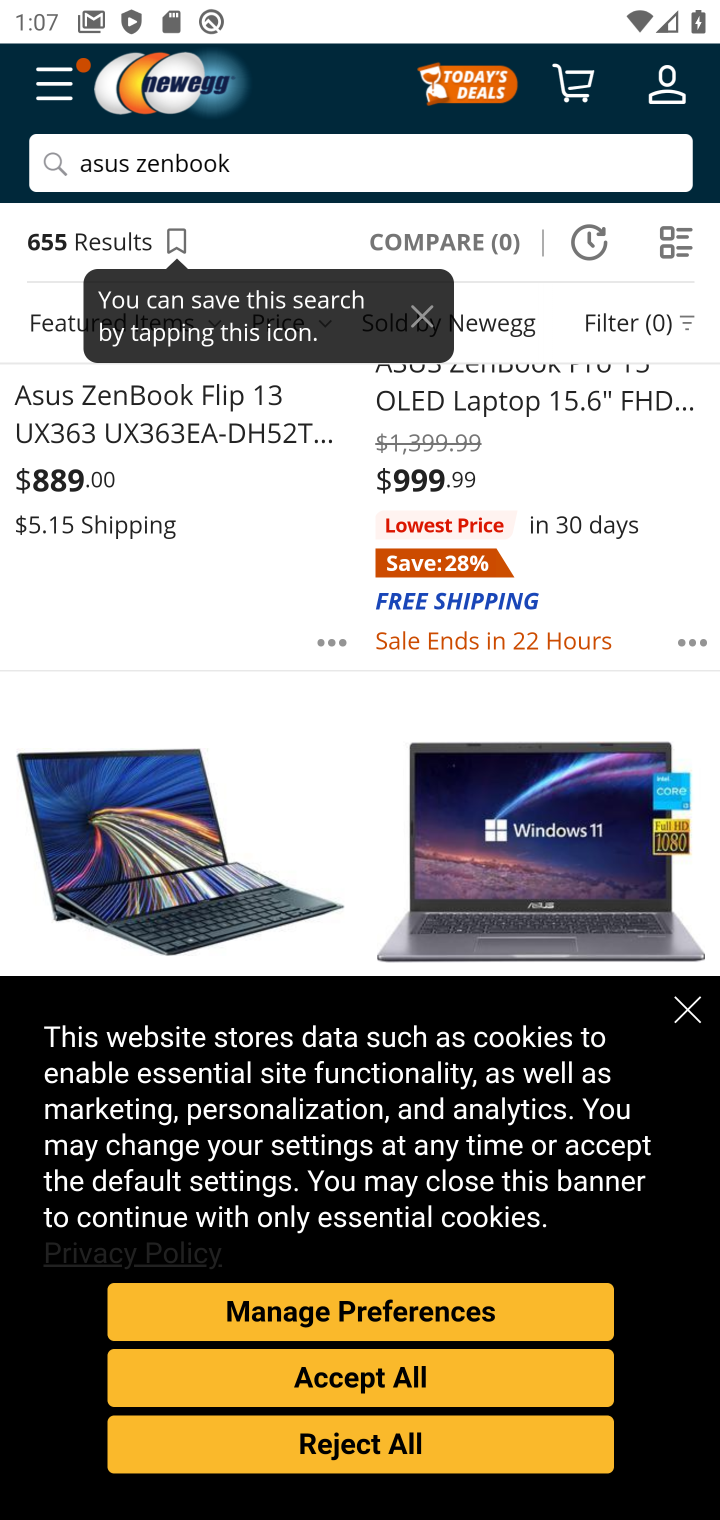
Step 35: click (475, 394)
Your task to perform on an android device: Add "asus zenbook" to the cart on newegg, then select checkout. Image 36: 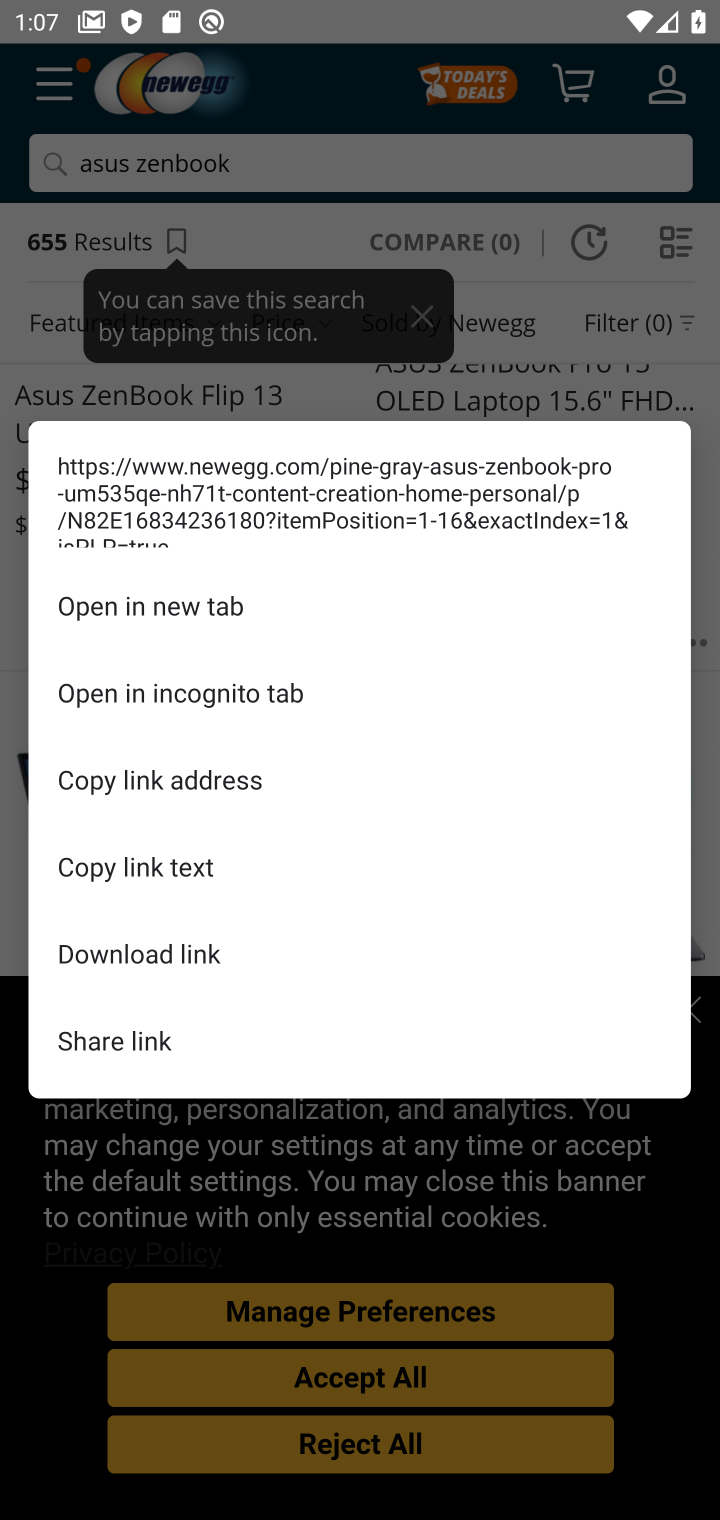
Step 36: click (461, 367)
Your task to perform on an android device: Add "asus zenbook" to the cart on newegg, then select checkout. Image 37: 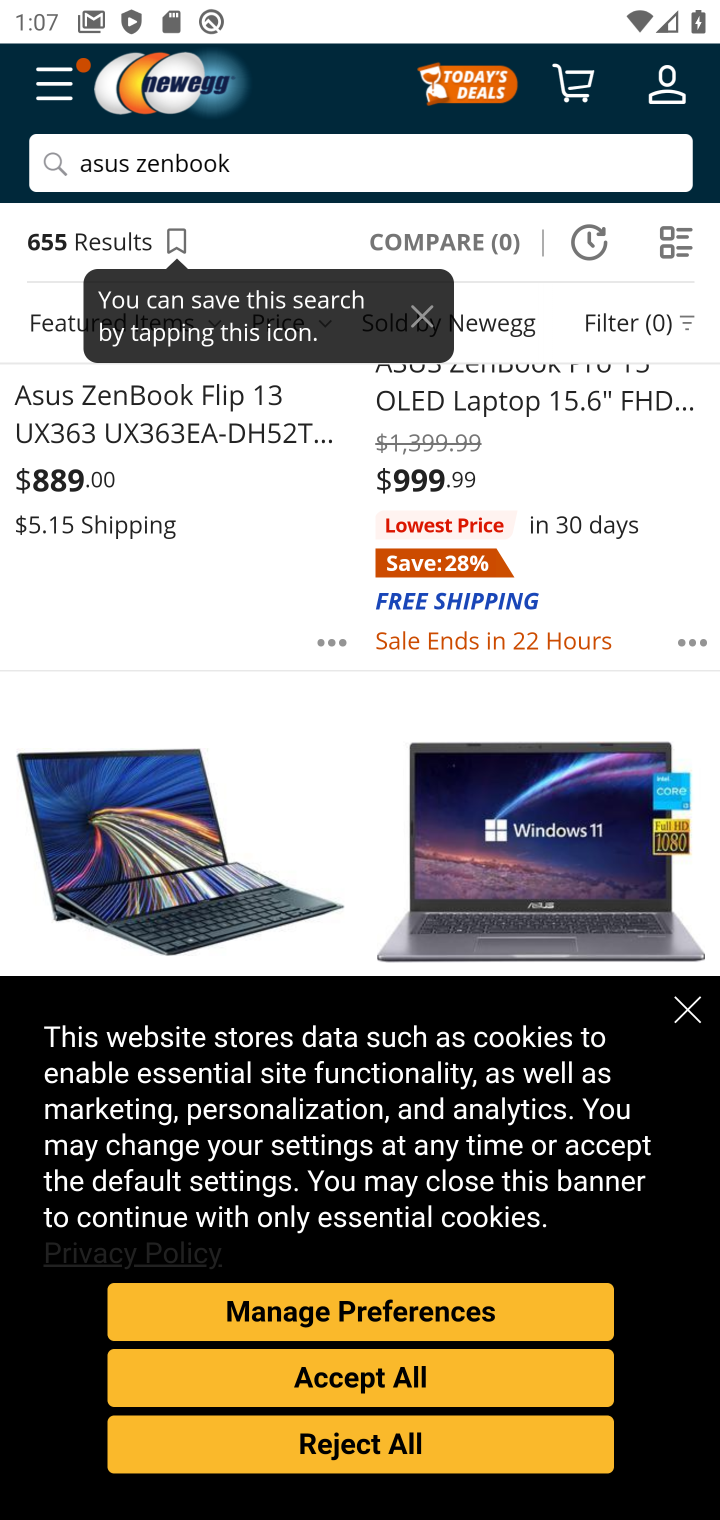
Step 37: click (451, 396)
Your task to perform on an android device: Add "asus zenbook" to the cart on newegg, then select checkout. Image 38: 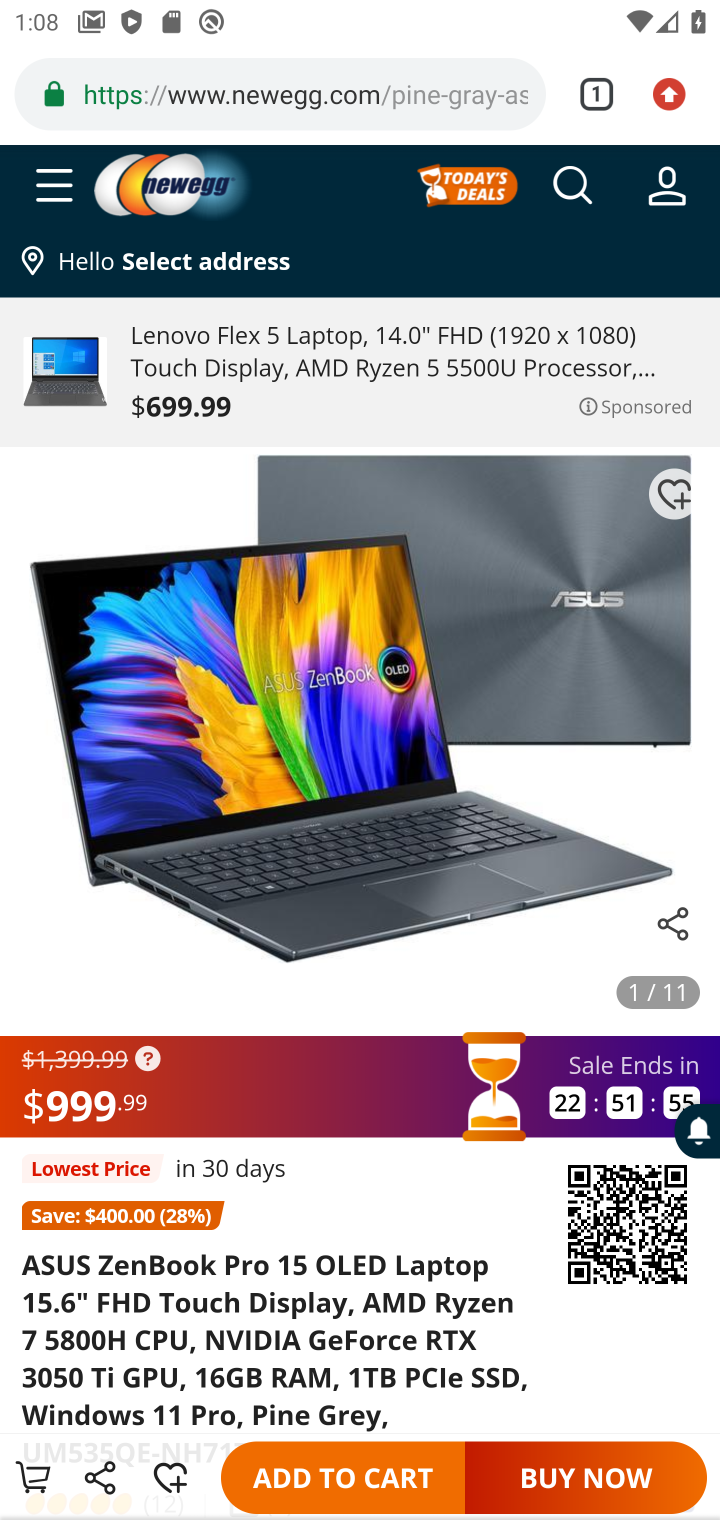
Step 38: click (251, 1459)
Your task to perform on an android device: Add "asus zenbook" to the cart on newegg, then select checkout. Image 39: 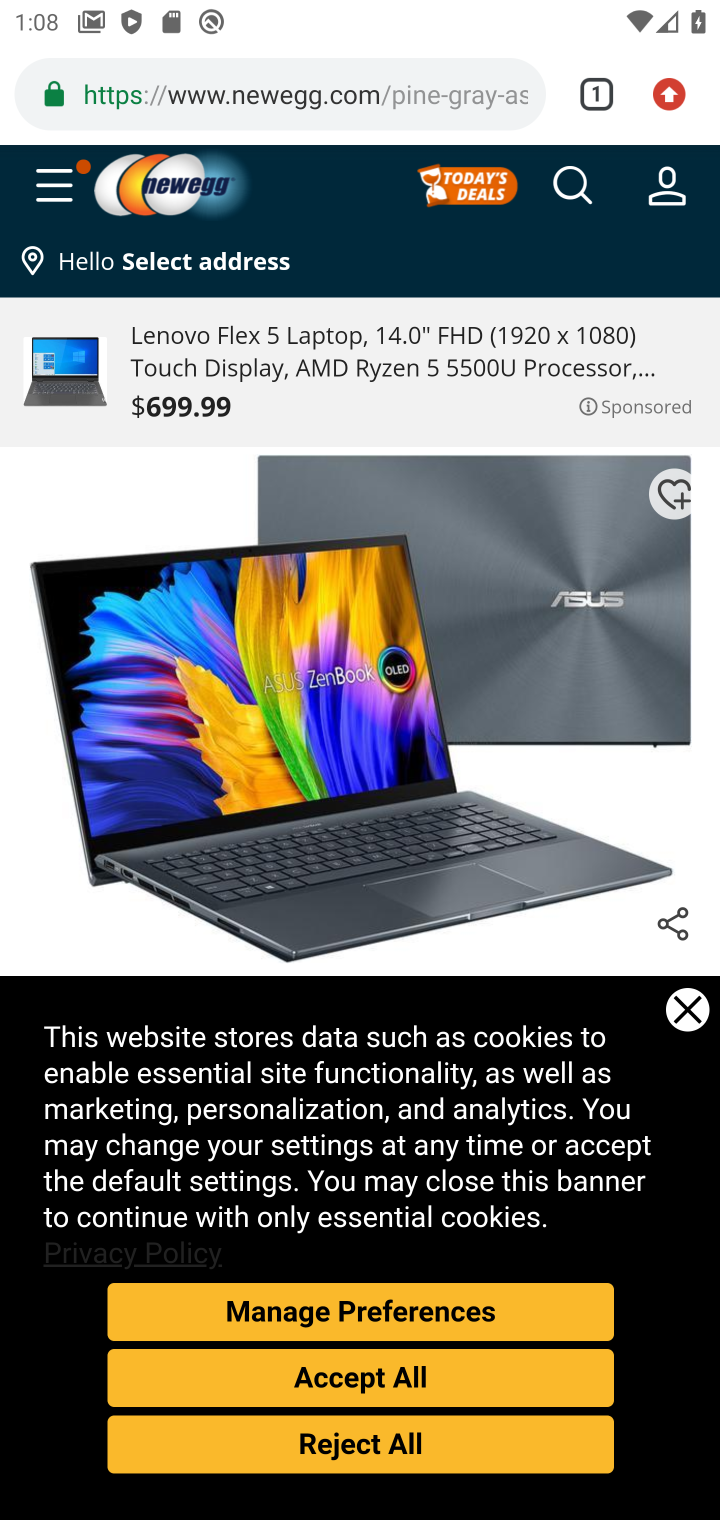
Step 39: click (642, 999)
Your task to perform on an android device: Add "asus zenbook" to the cart on newegg, then select checkout. Image 40: 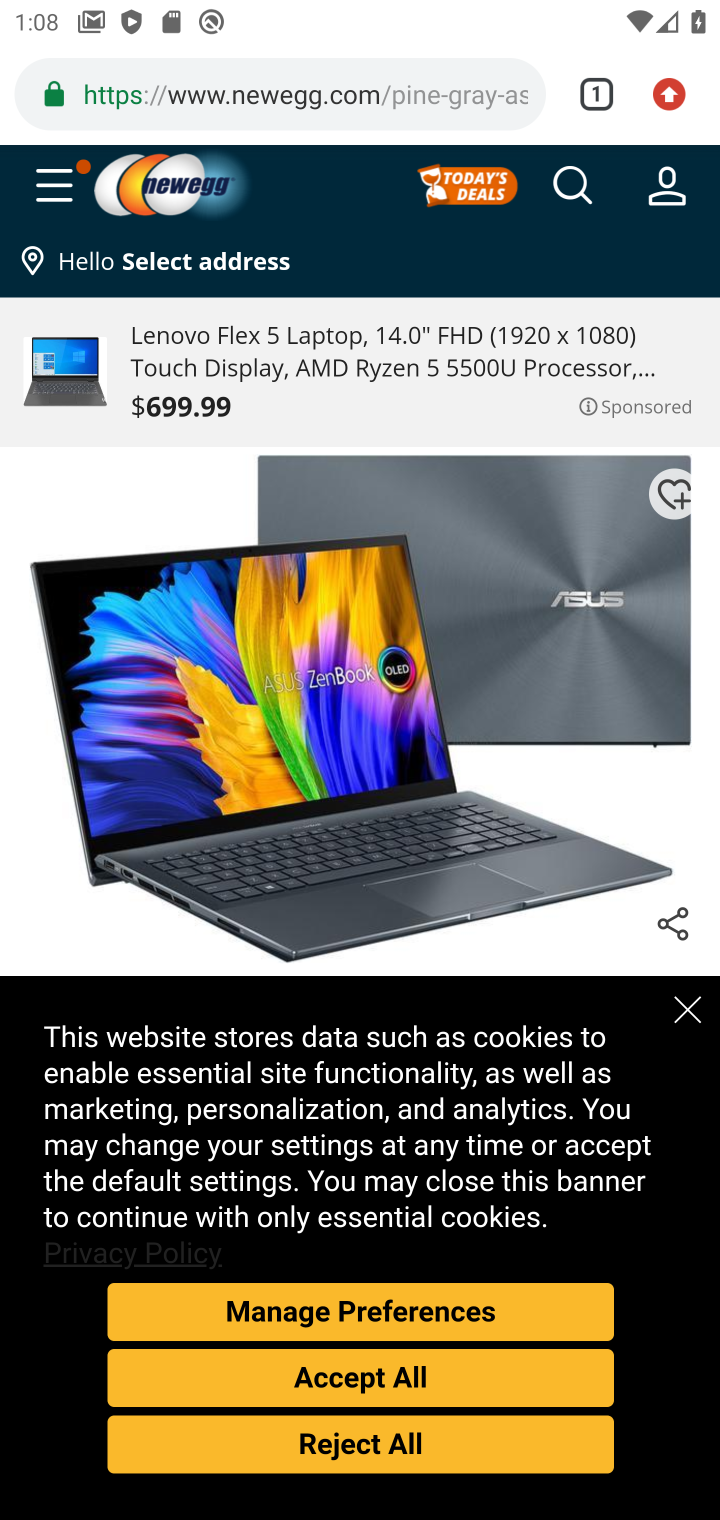
Step 40: click (670, 1021)
Your task to perform on an android device: Add "asus zenbook" to the cart on newegg, then select checkout. Image 41: 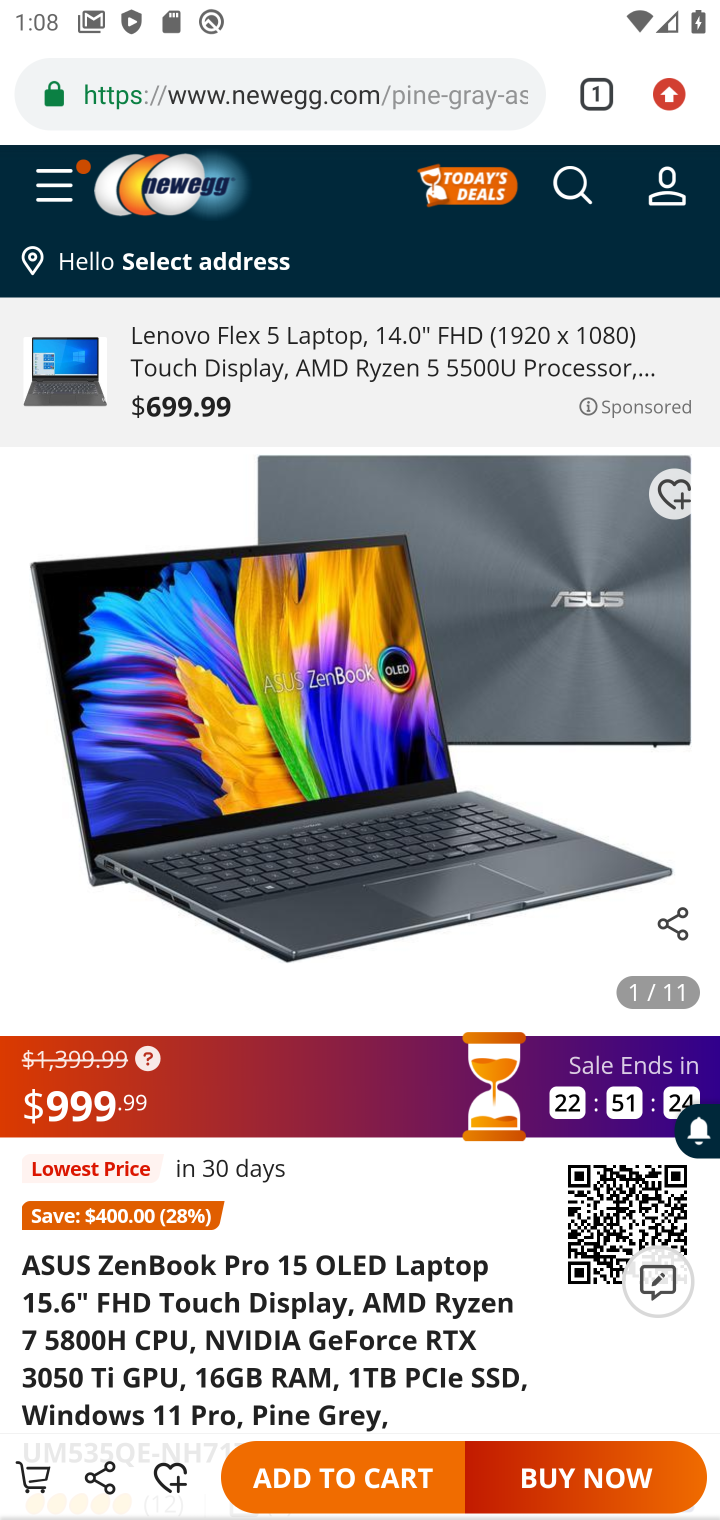
Step 41: click (376, 1470)
Your task to perform on an android device: Add "asus zenbook" to the cart on newegg, then select checkout. Image 42: 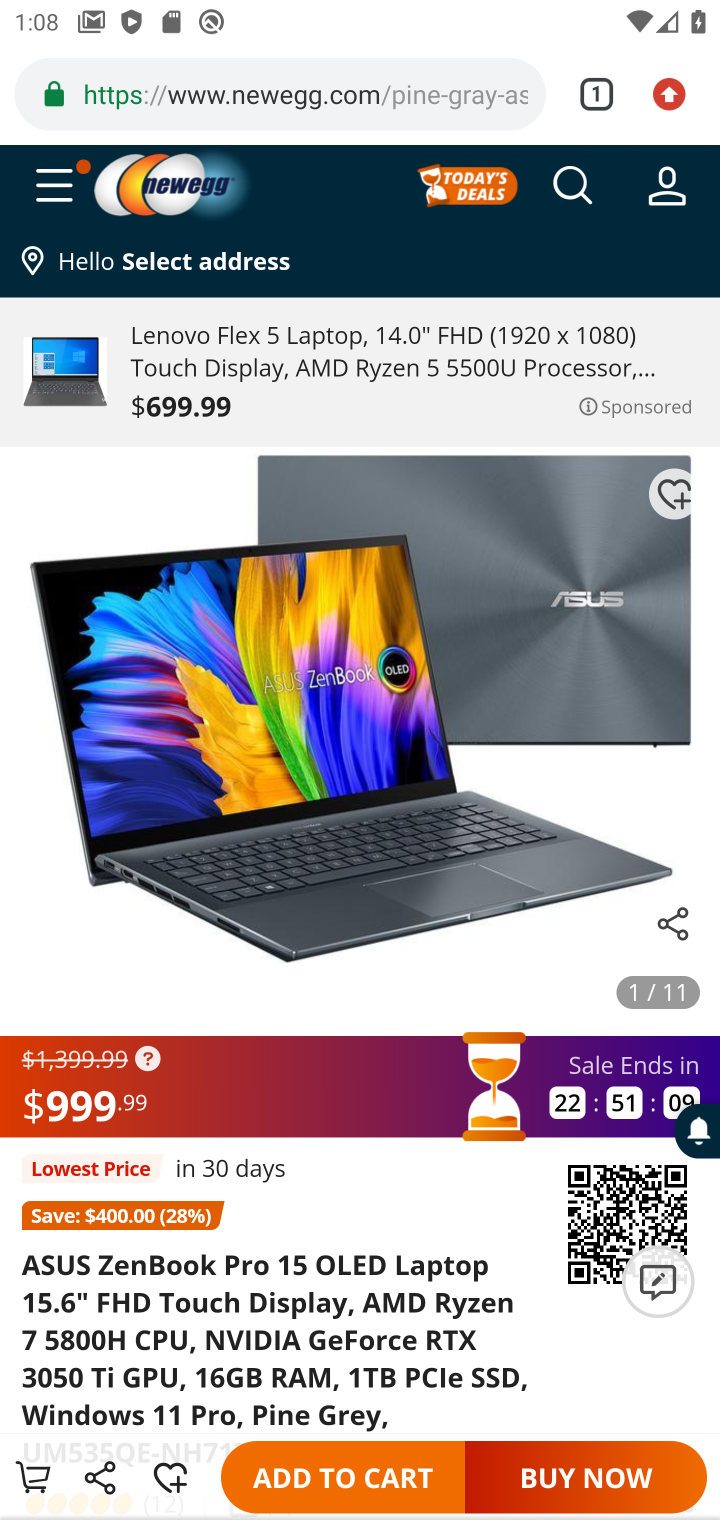
Step 42: click (362, 1478)
Your task to perform on an android device: Add "asus zenbook" to the cart on newegg, then select checkout. Image 43: 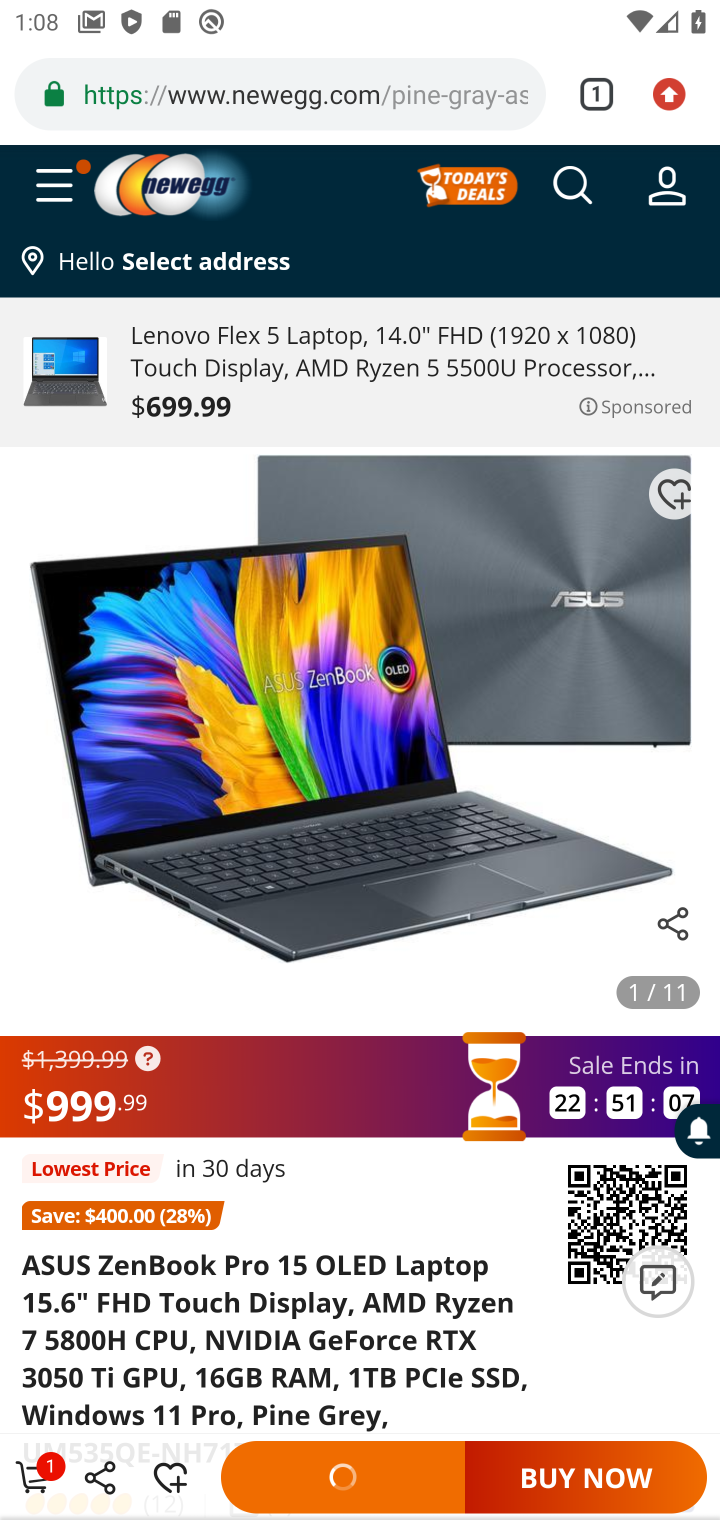
Step 43: click (43, 1460)
Your task to perform on an android device: Add "asus zenbook" to the cart on newegg, then select checkout. Image 44: 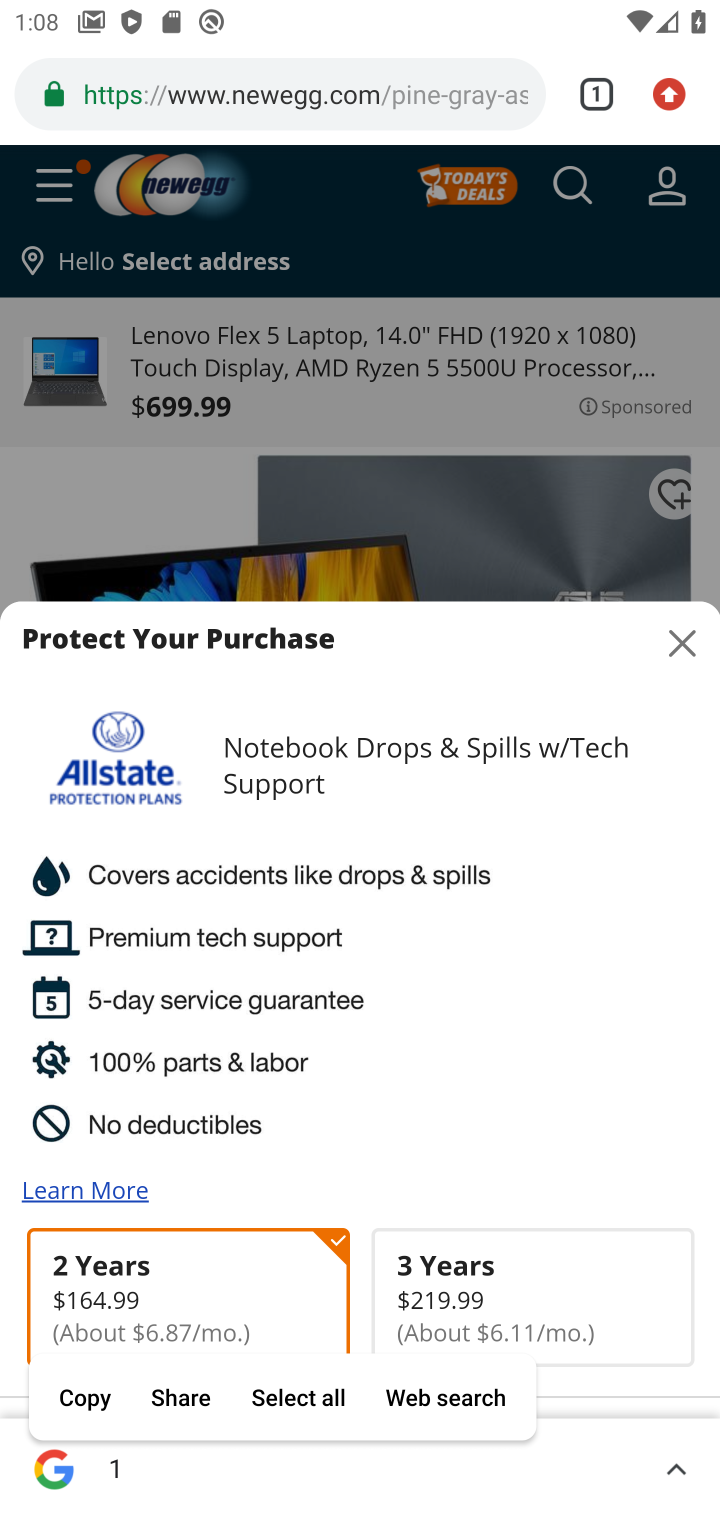
Step 44: click (705, 636)
Your task to perform on an android device: Add "asus zenbook" to the cart on newegg, then select checkout. Image 45: 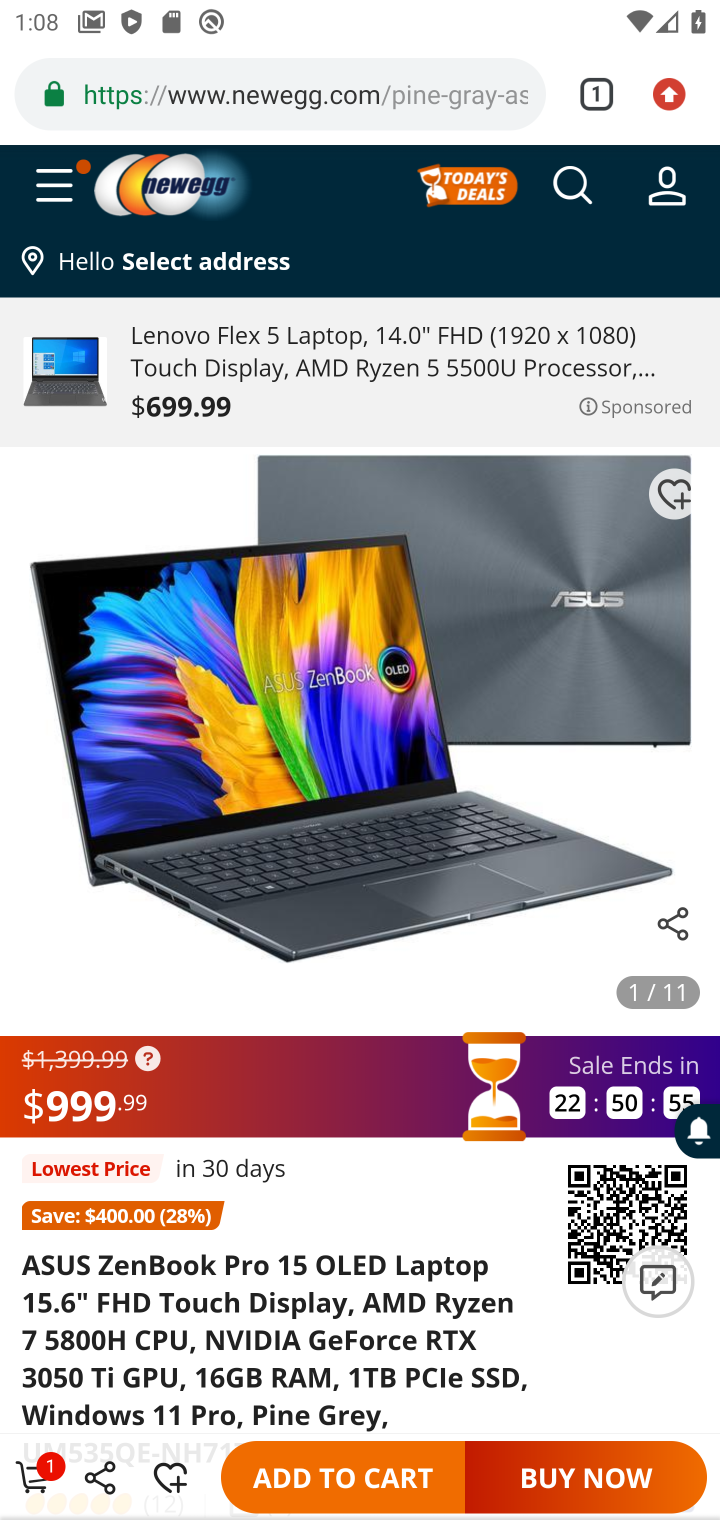
Step 45: click (31, 1467)
Your task to perform on an android device: Add "asus zenbook" to the cart on newegg, then select checkout. Image 46: 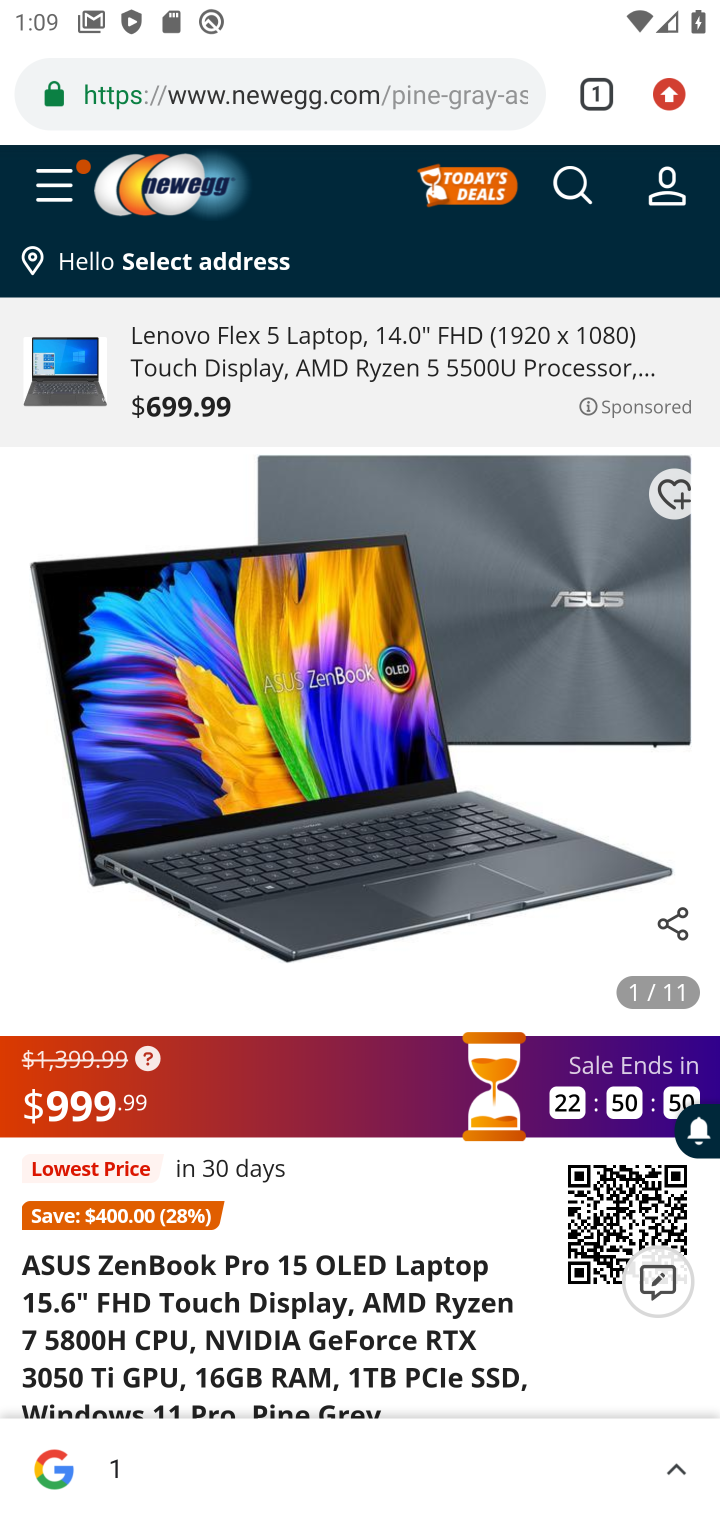
Step 46: drag from (397, 1101) to (506, 505)
Your task to perform on an android device: Add "asus zenbook" to the cart on newegg, then select checkout. Image 47: 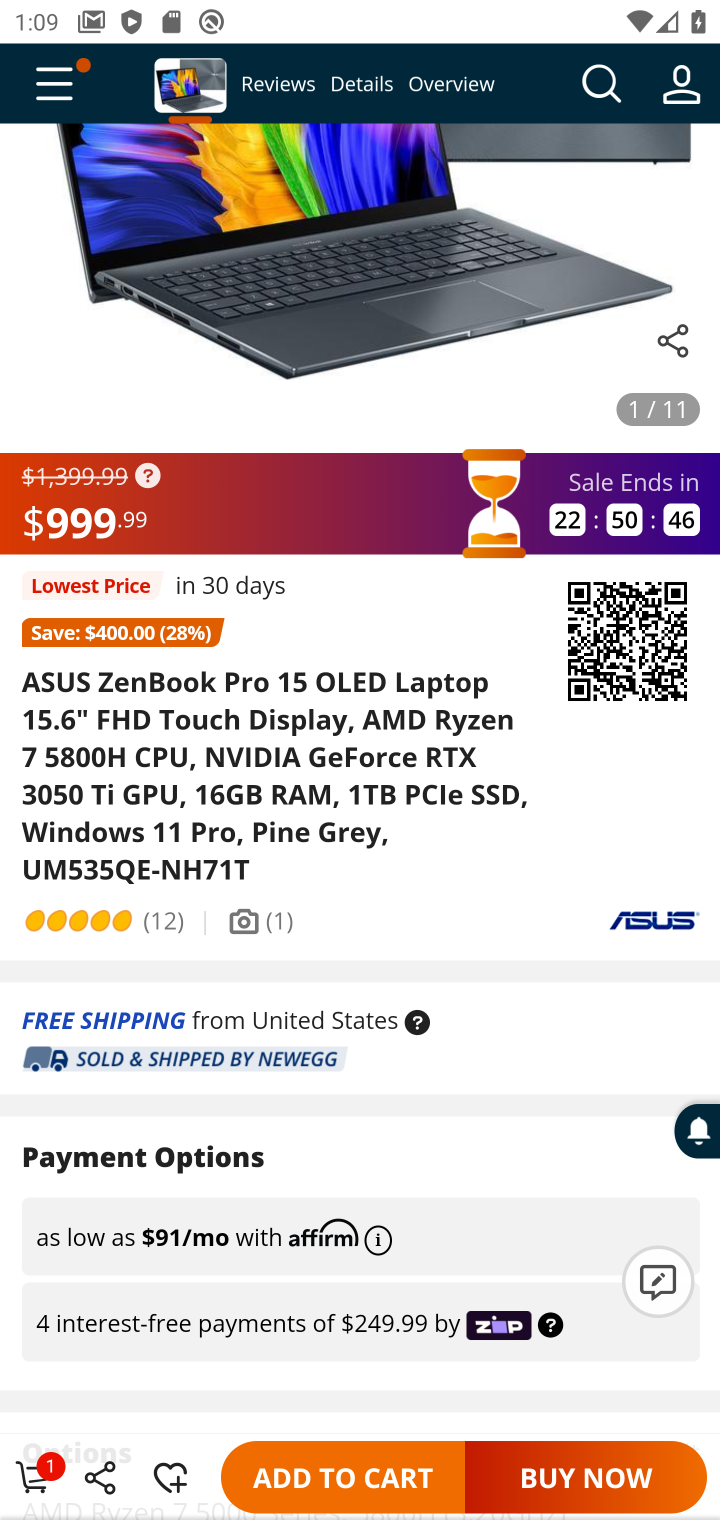
Step 47: click (48, 1481)
Your task to perform on an android device: Add "asus zenbook" to the cart on newegg, then select checkout. Image 48: 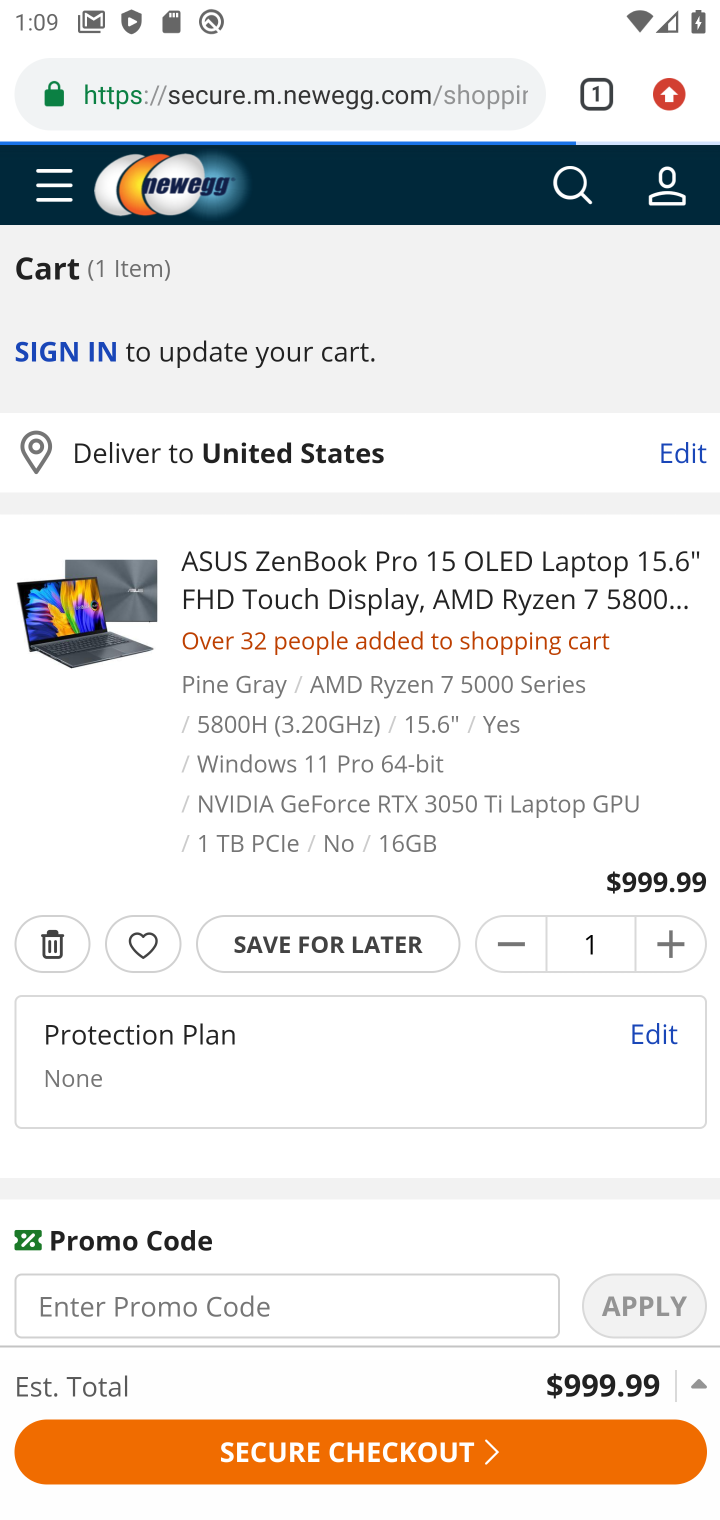
Step 48: drag from (43, 1478) to (135, 1257)
Your task to perform on an android device: Add "asus zenbook" to the cart on newegg, then select checkout. Image 49: 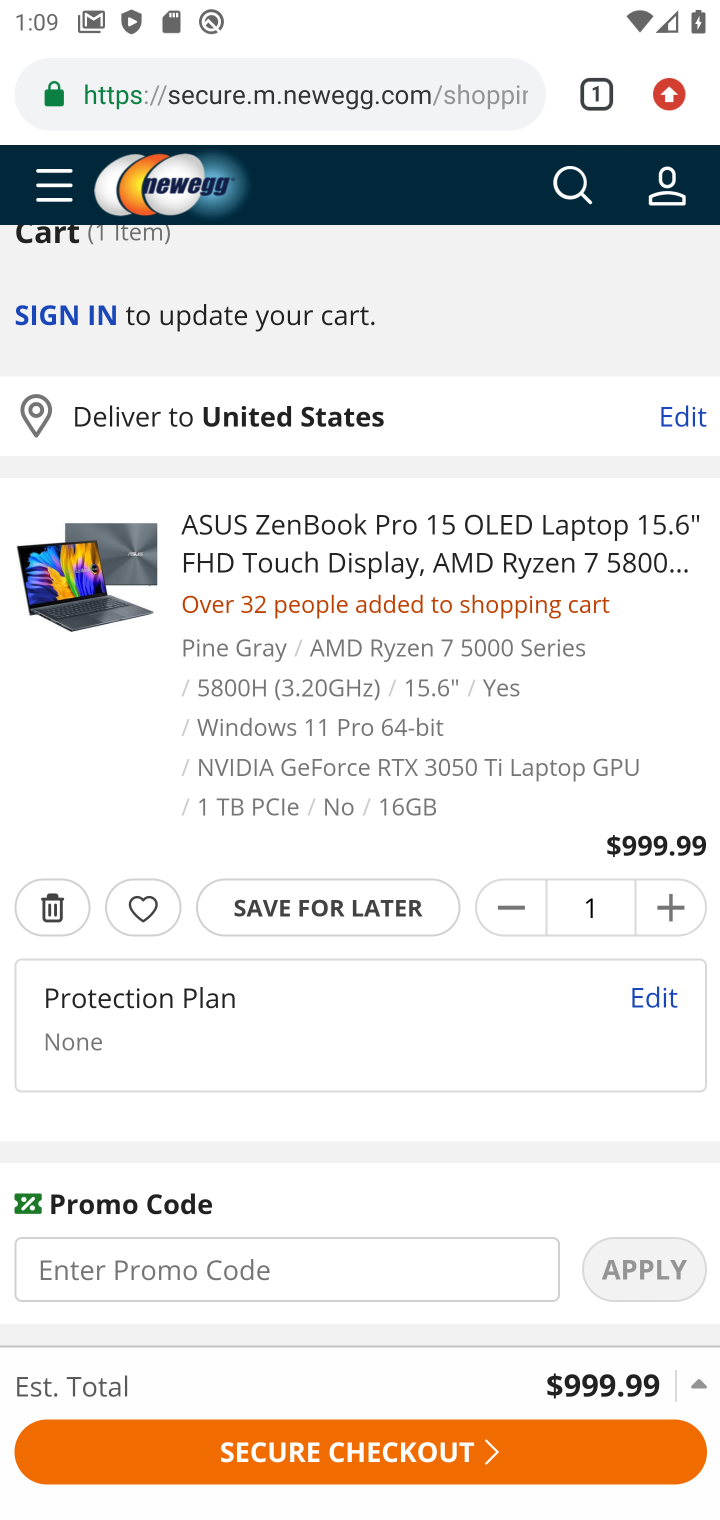
Step 49: click (292, 1456)
Your task to perform on an android device: Add "asus zenbook" to the cart on newegg, then select checkout. Image 50: 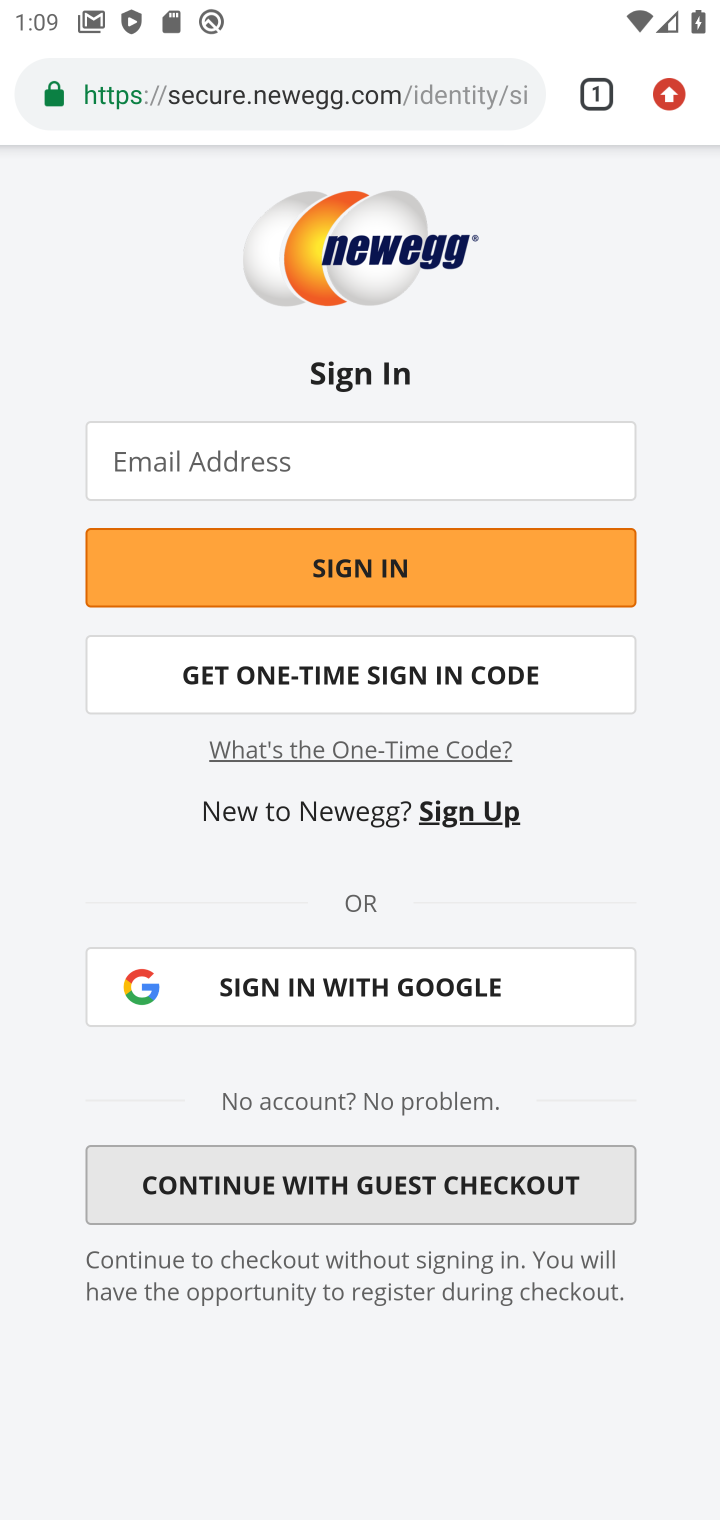
Step 50: task complete